Your task to perform on an android device: open app "Walmart Shopping & Grocery" (install if not already installed) Image 0: 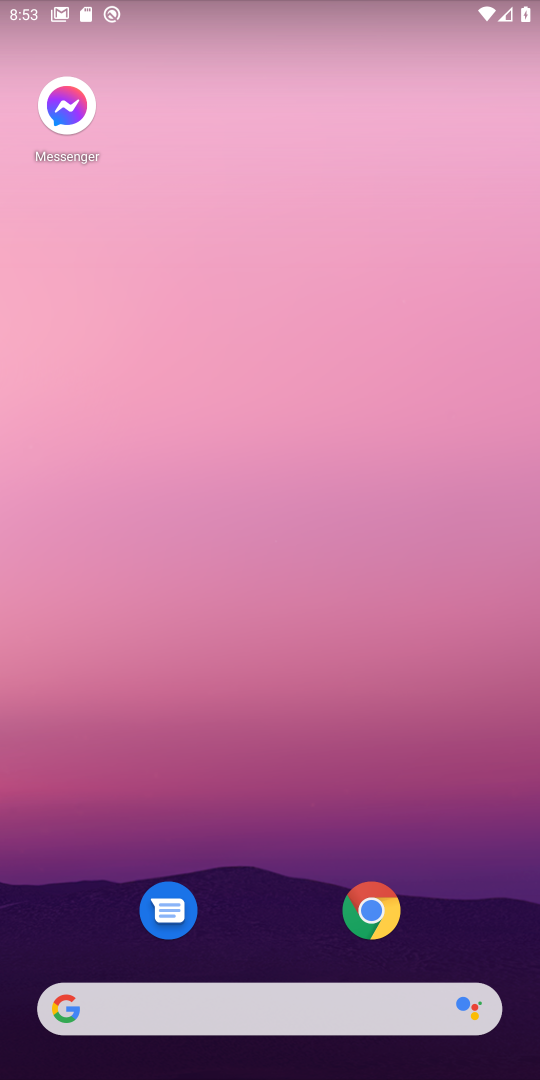
Step 0: press back button
Your task to perform on an android device: open app "Walmart Shopping & Grocery" (install if not already installed) Image 1: 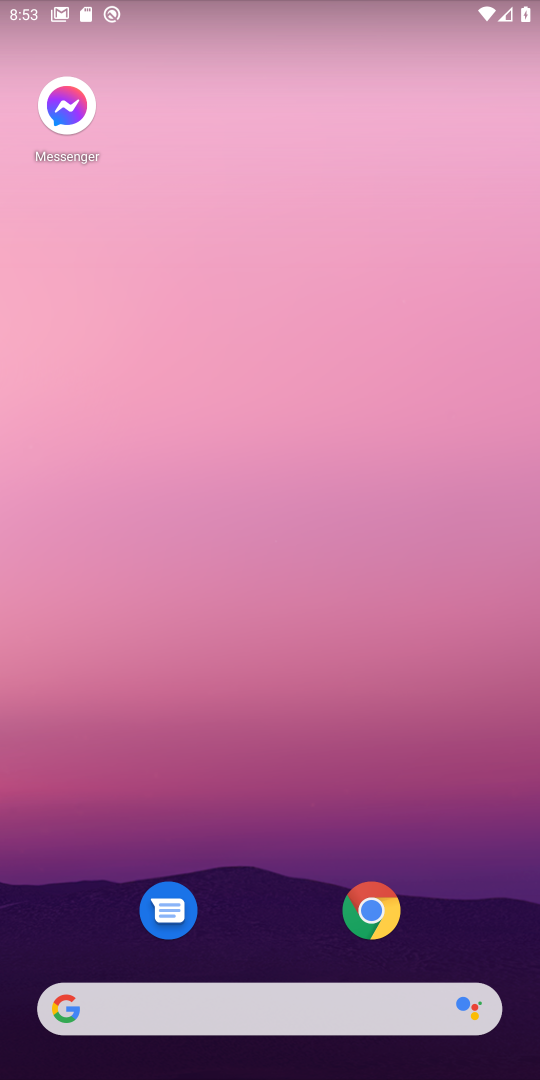
Step 1: press back button
Your task to perform on an android device: open app "Walmart Shopping & Grocery" (install if not already installed) Image 2: 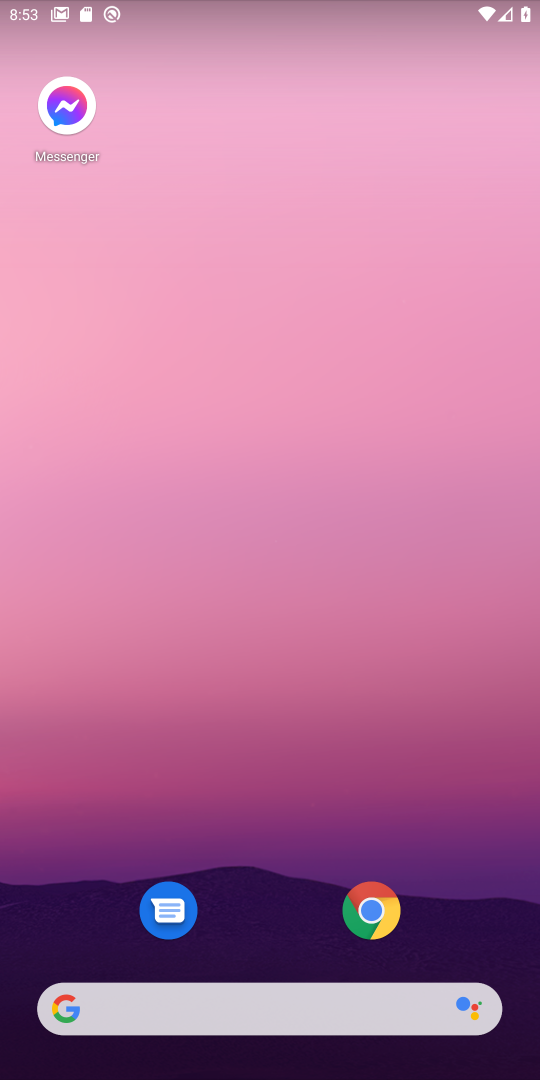
Step 2: drag from (238, 944) to (192, 2)
Your task to perform on an android device: open app "Walmart Shopping & Grocery" (install if not already installed) Image 3: 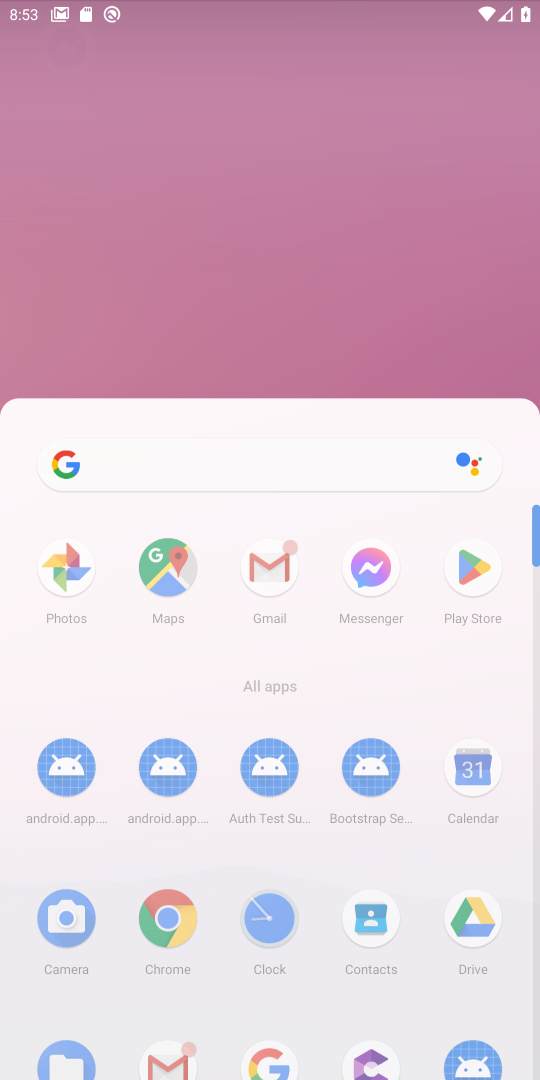
Step 3: drag from (353, 859) to (364, 304)
Your task to perform on an android device: open app "Walmart Shopping & Grocery" (install if not already installed) Image 4: 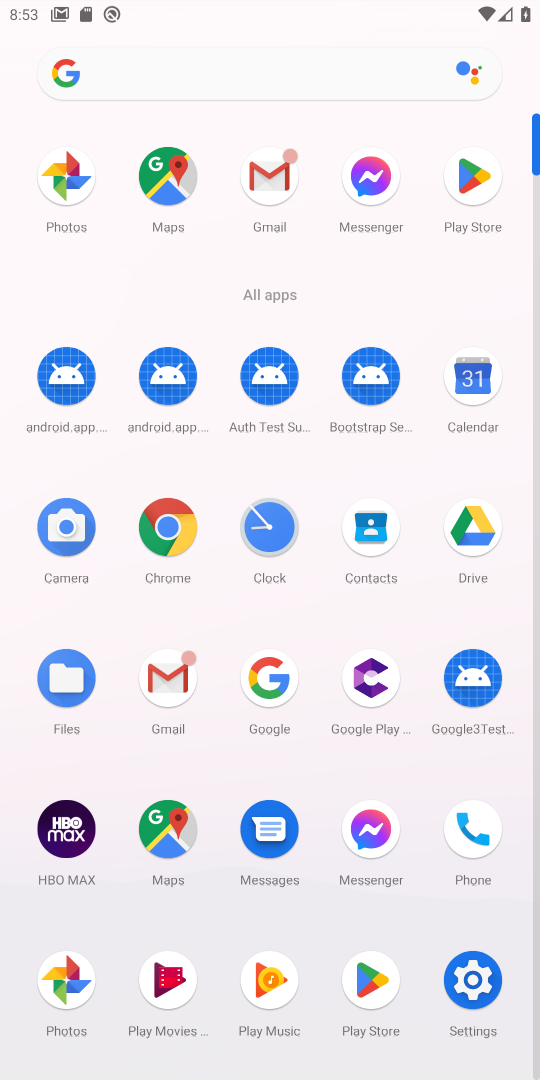
Step 4: drag from (363, 747) to (363, 242)
Your task to perform on an android device: open app "Walmart Shopping & Grocery" (install if not already installed) Image 5: 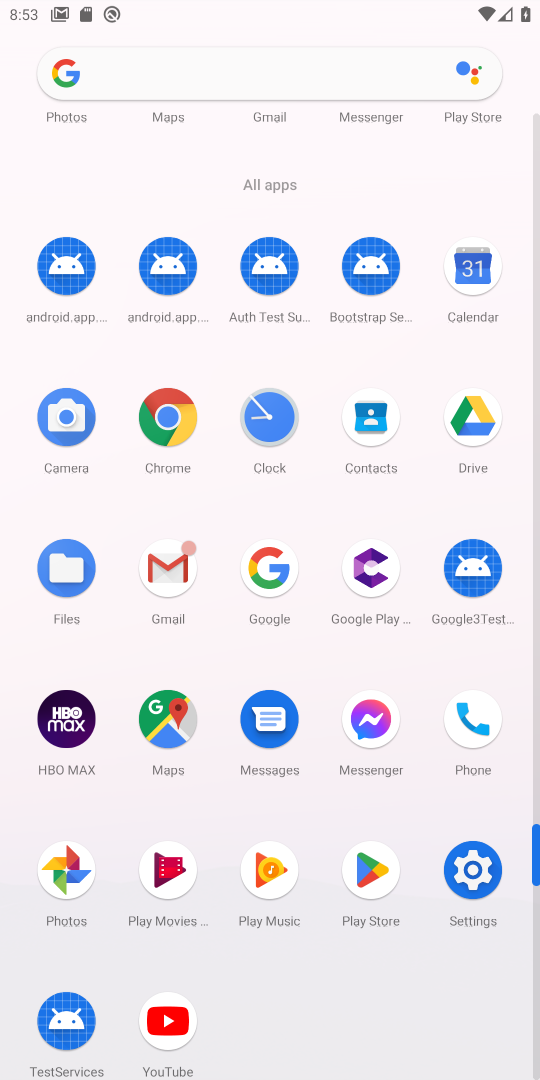
Step 5: click (372, 867)
Your task to perform on an android device: open app "Walmart Shopping & Grocery" (install if not already installed) Image 6: 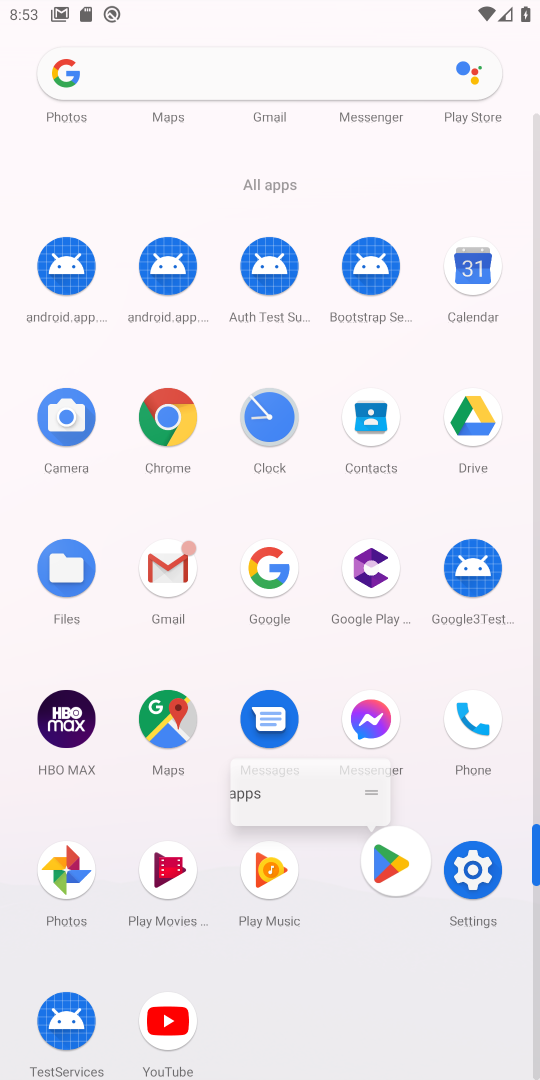
Step 6: click (367, 873)
Your task to perform on an android device: open app "Walmart Shopping & Grocery" (install if not already installed) Image 7: 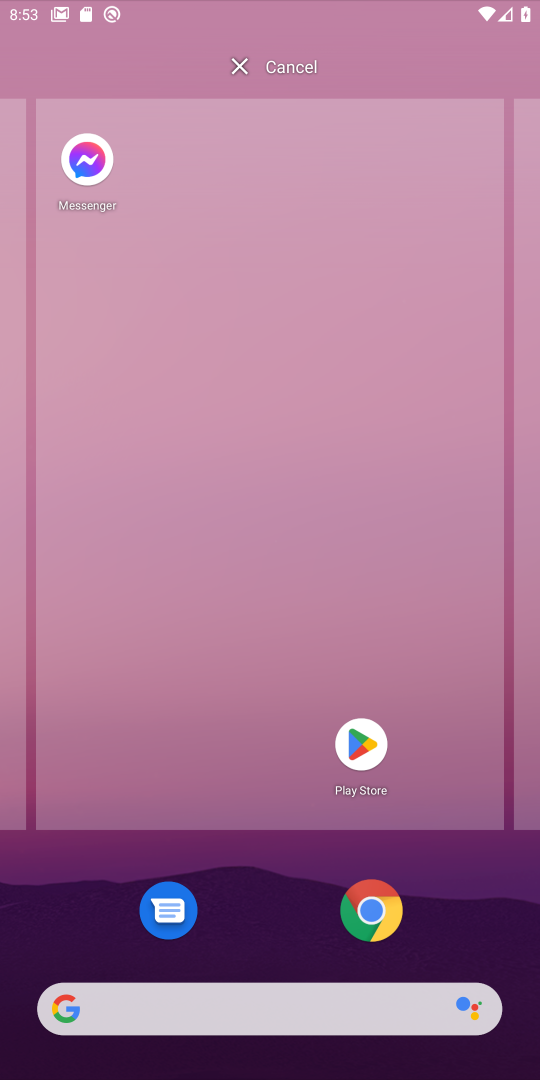
Step 7: click (372, 871)
Your task to perform on an android device: open app "Walmart Shopping & Grocery" (install if not already installed) Image 8: 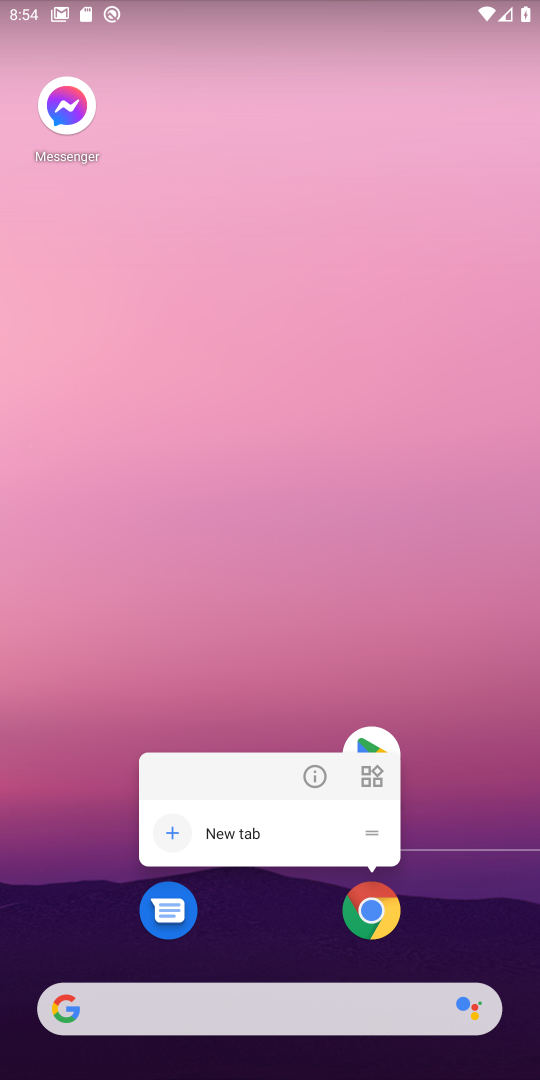
Step 8: drag from (401, 736) to (258, 113)
Your task to perform on an android device: open app "Walmart Shopping & Grocery" (install if not already installed) Image 9: 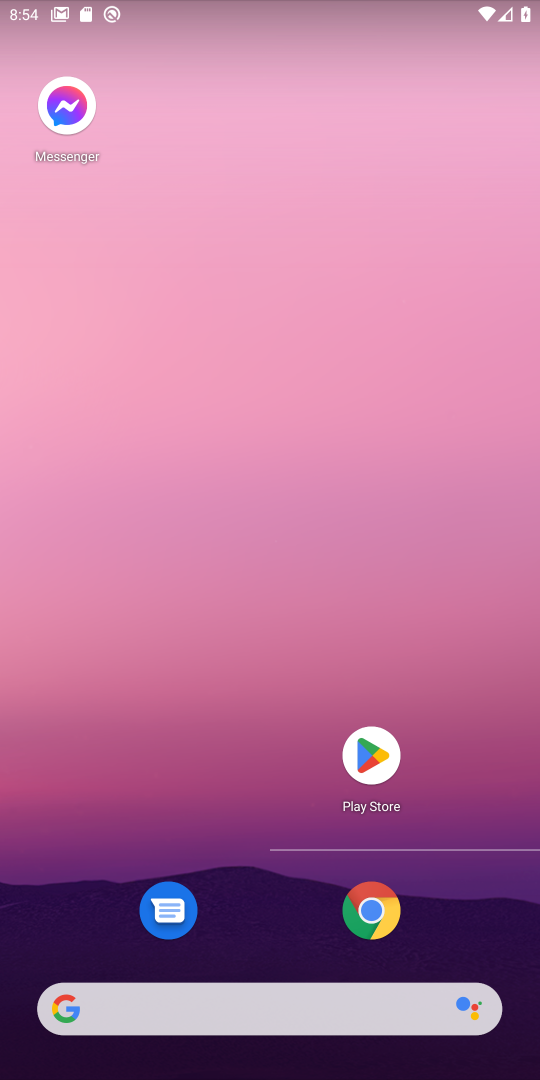
Step 9: drag from (400, 717) to (327, 168)
Your task to perform on an android device: open app "Walmart Shopping & Grocery" (install if not already installed) Image 10: 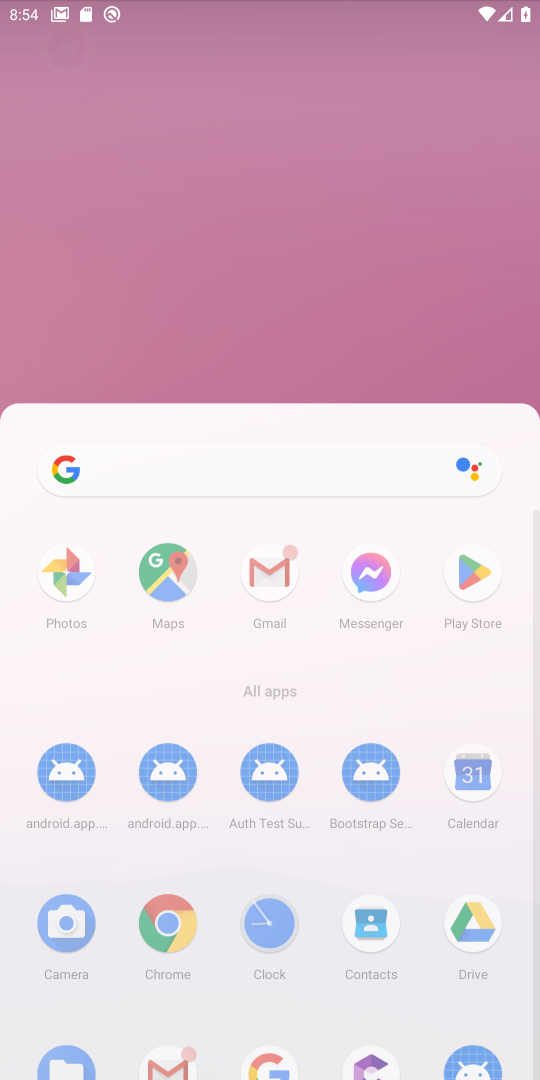
Step 10: drag from (468, 594) to (433, 278)
Your task to perform on an android device: open app "Walmart Shopping & Grocery" (install if not already installed) Image 11: 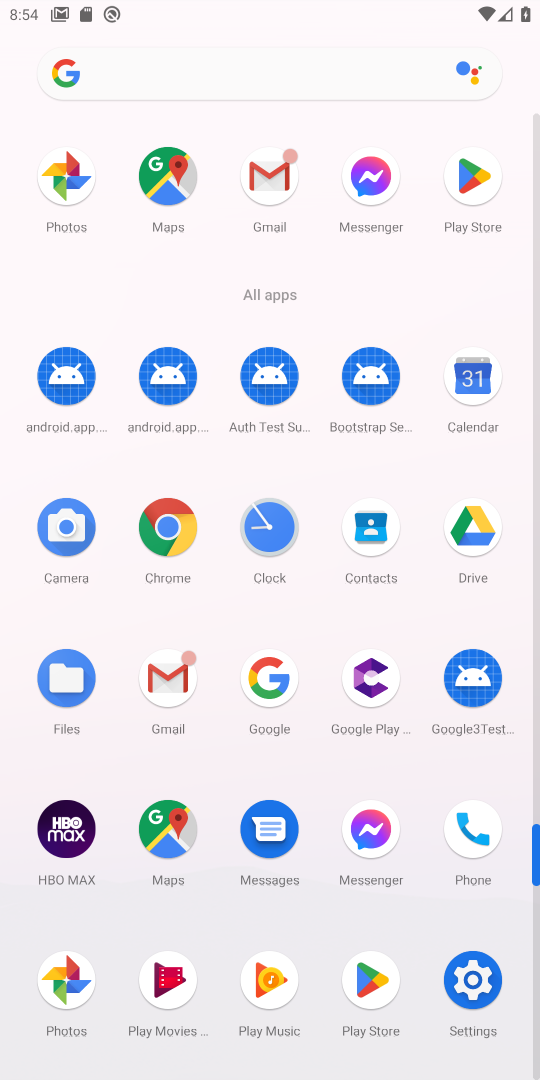
Step 11: click (384, 967)
Your task to perform on an android device: open app "Walmart Shopping & Grocery" (install if not already installed) Image 12: 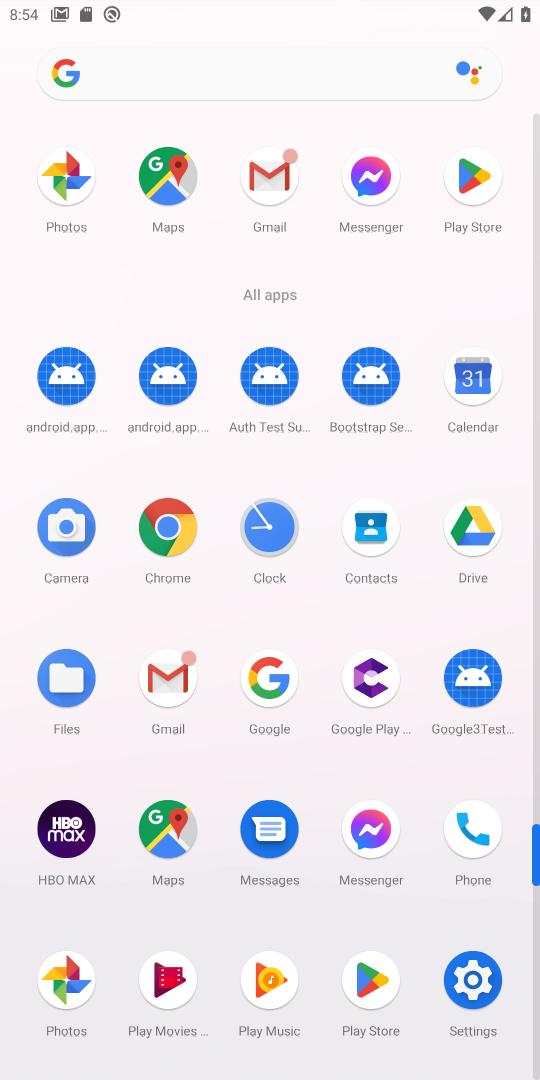
Step 12: click (381, 961)
Your task to perform on an android device: open app "Walmart Shopping & Grocery" (install if not already installed) Image 13: 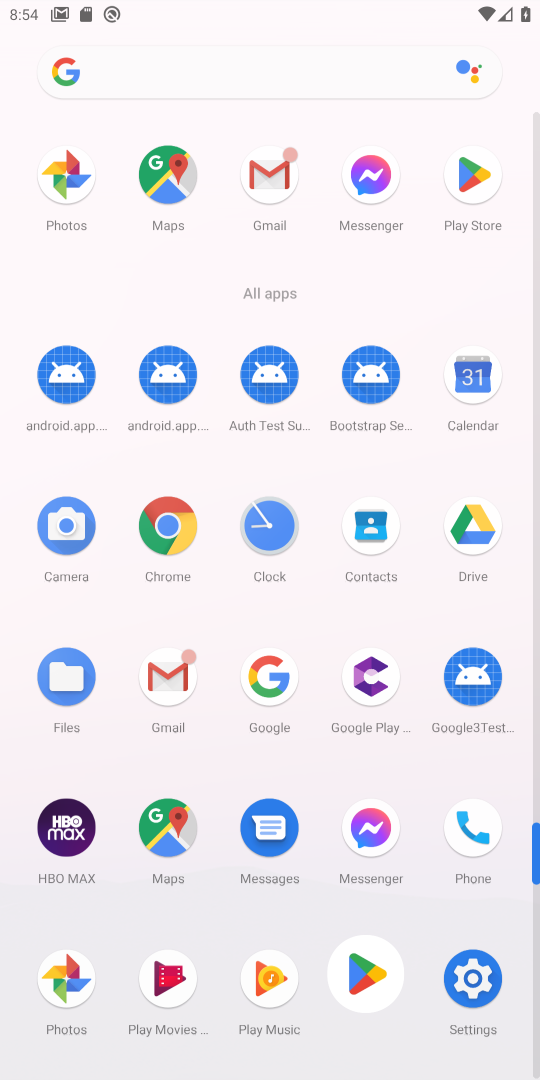
Step 13: click (383, 961)
Your task to perform on an android device: open app "Walmart Shopping & Grocery" (install if not already installed) Image 14: 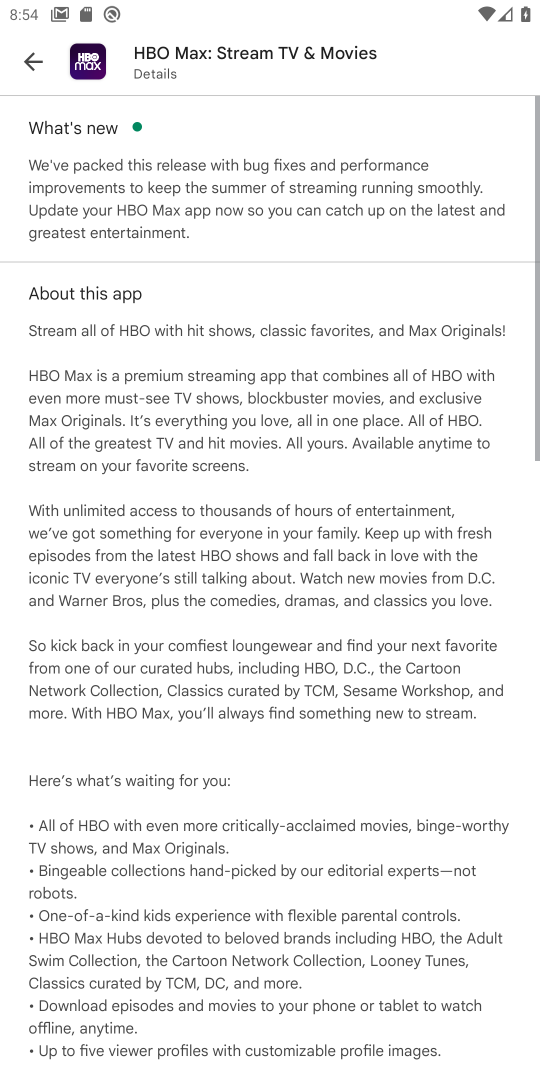
Step 14: click (23, 55)
Your task to perform on an android device: open app "Walmart Shopping & Grocery" (install if not already installed) Image 15: 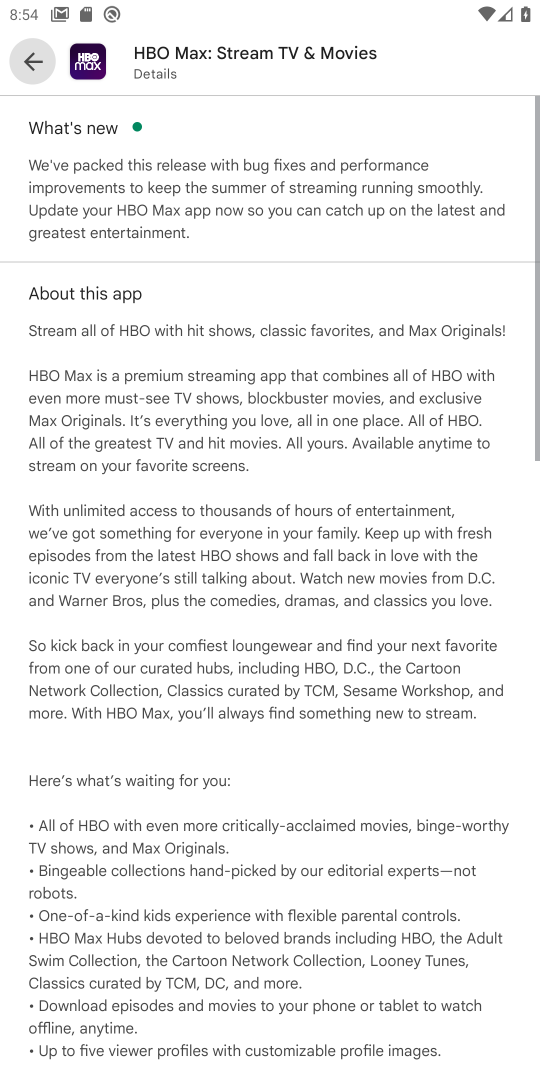
Step 15: click (26, 52)
Your task to perform on an android device: open app "Walmart Shopping & Grocery" (install if not already installed) Image 16: 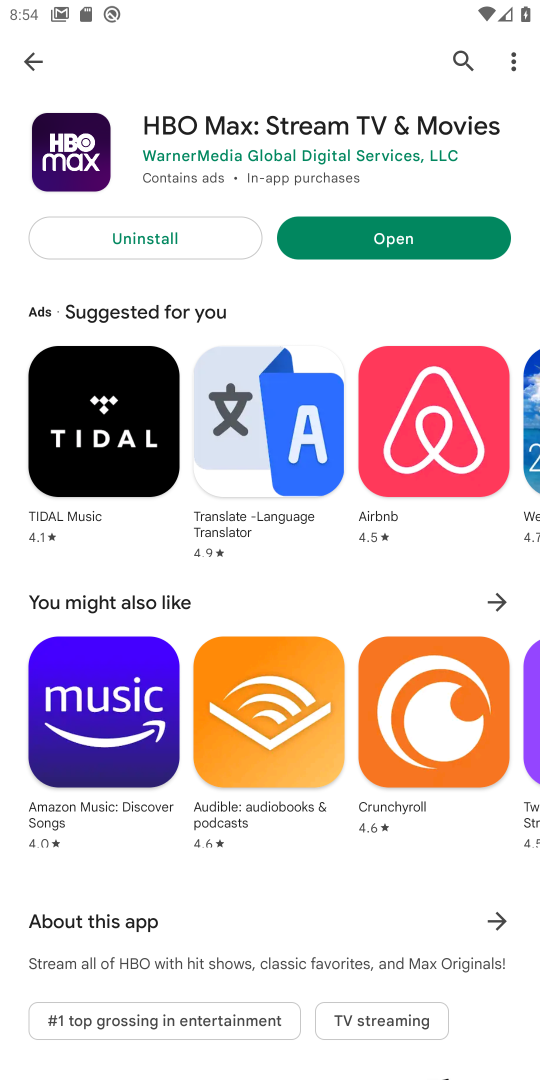
Step 16: click (27, 29)
Your task to perform on an android device: open app "Walmart Shopping & Grocery" (install if not already installed) Image 17: 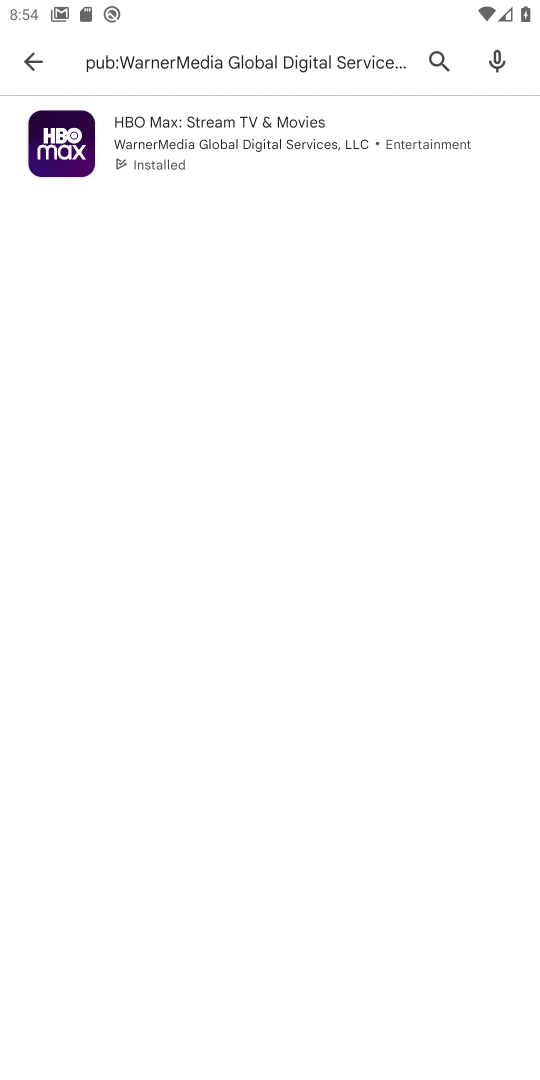
Step 17: click (31, 61)
Your task to perform on an android device: open app "Walmart Shopping & Grocery" (install if not already installed) Image 18: 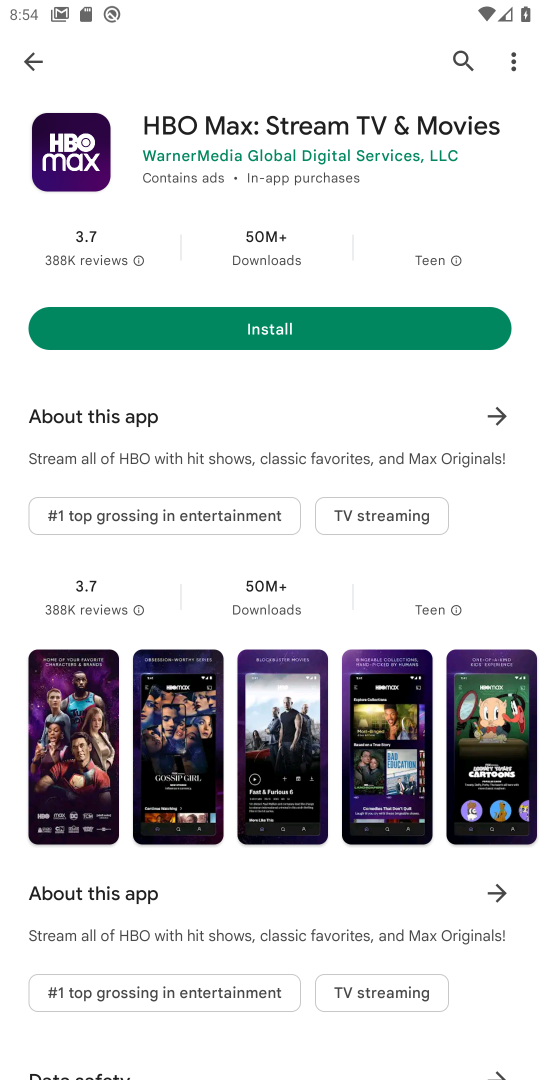
Step 18: click (18, 44)
Your task to perform on an android device: open app "Walmart Shopping & Grocery" (install if not already installed) Image 19: 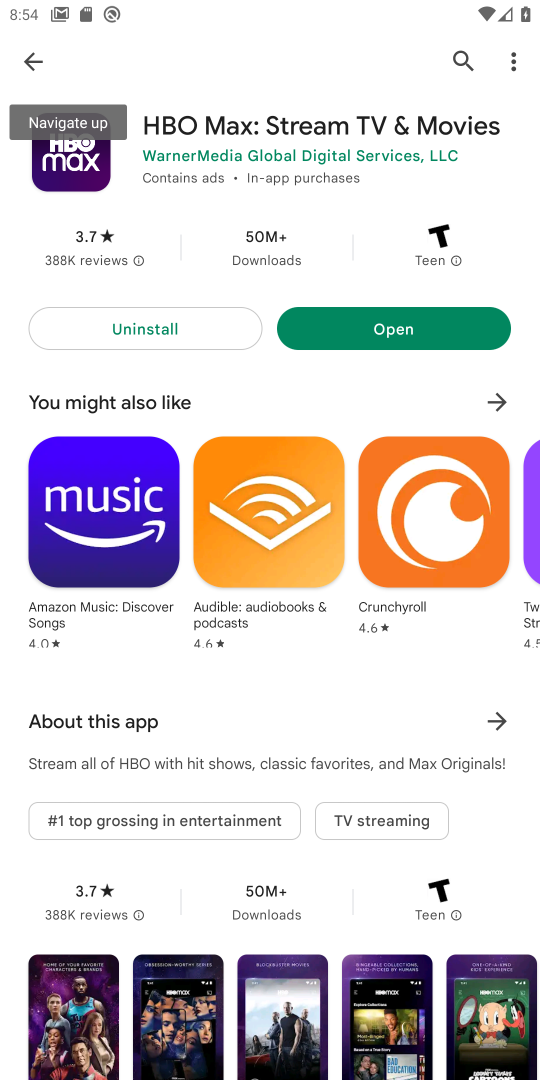
Step 19: click (30, 51)
Your task to perform on an android device: open app "Walmart Shopping & Grocery" (install if not already installed) Image 20: 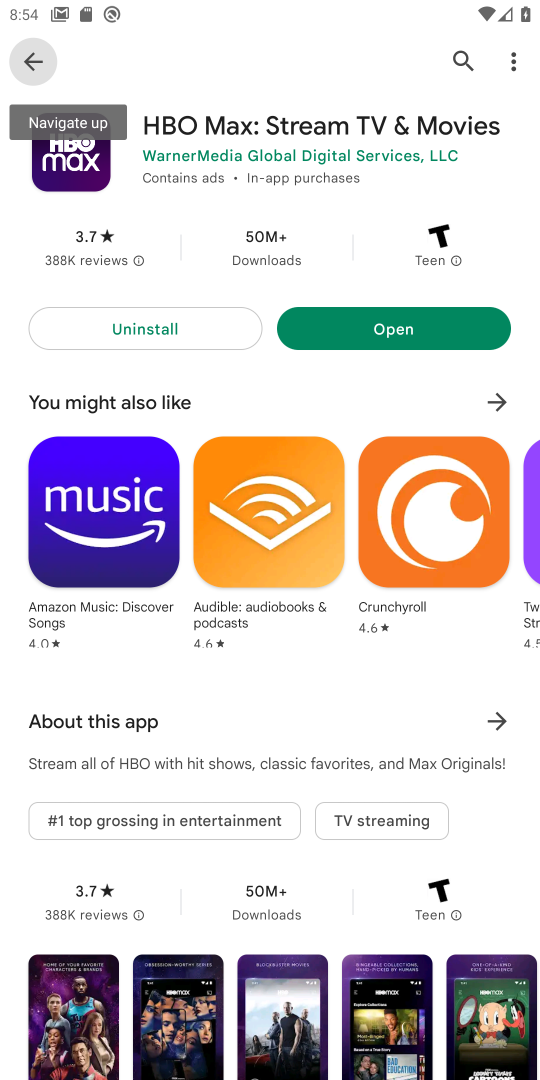
Step 20: click (39, 29)
Your task to perform on an android device: open app "Walmart Shopping & Grocery" (install if not already installed) Image 21: 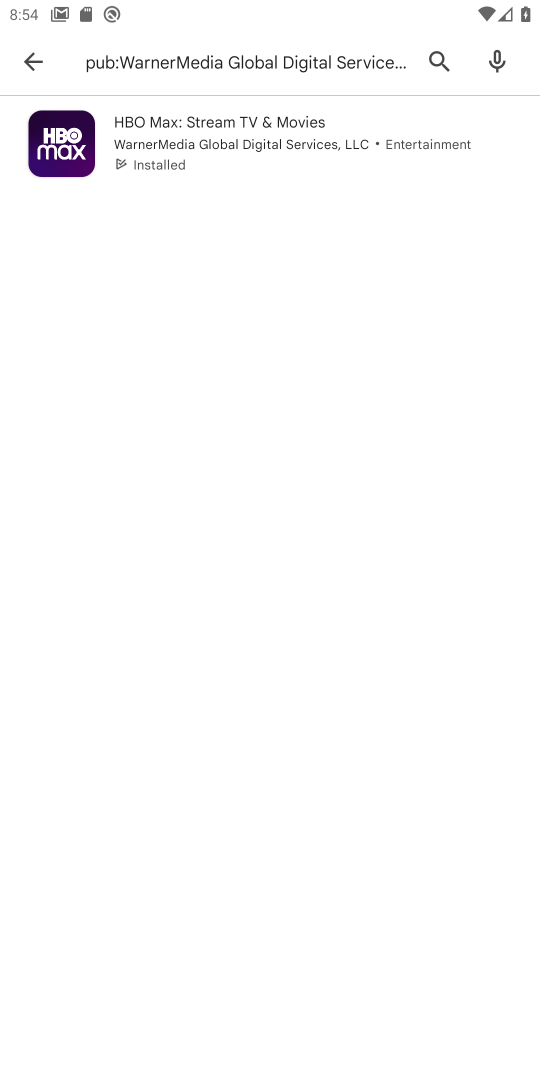
Step 21: click (45, 68)
Your task to perform on an android device: open app "Walmart Shopping & Grocery" (install if not already installed) Image 22: 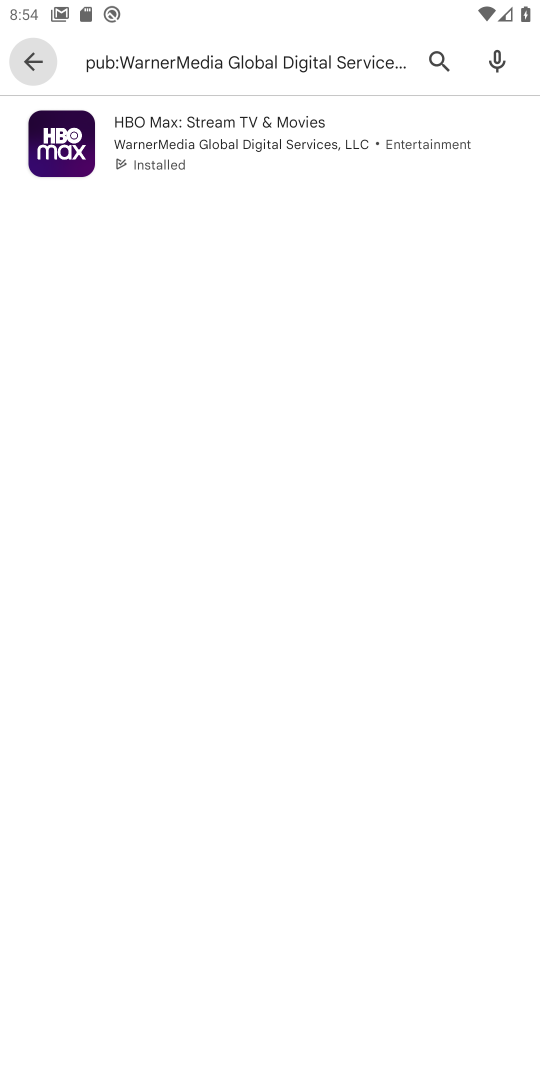
Step 22: click (33, 47)
Your task to perform on an android device: open app "Walmart Shopping & Grocery" (install if not already installed) Image 23: 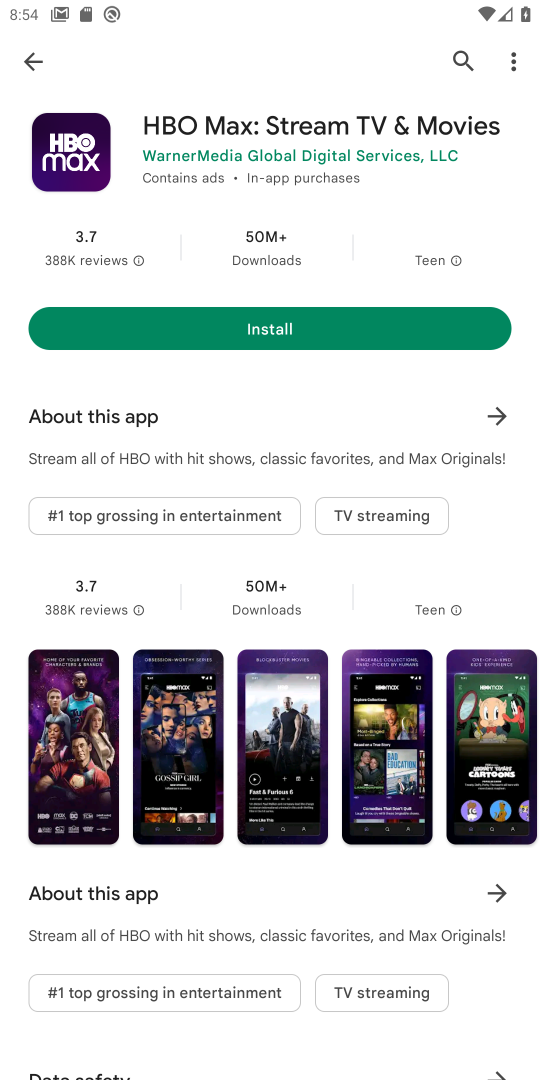
Step 23: click (29, 47)
Your task to perform on an android device: open app "Walmart Shopping & Grocery" (install if not already installed) Image 24: 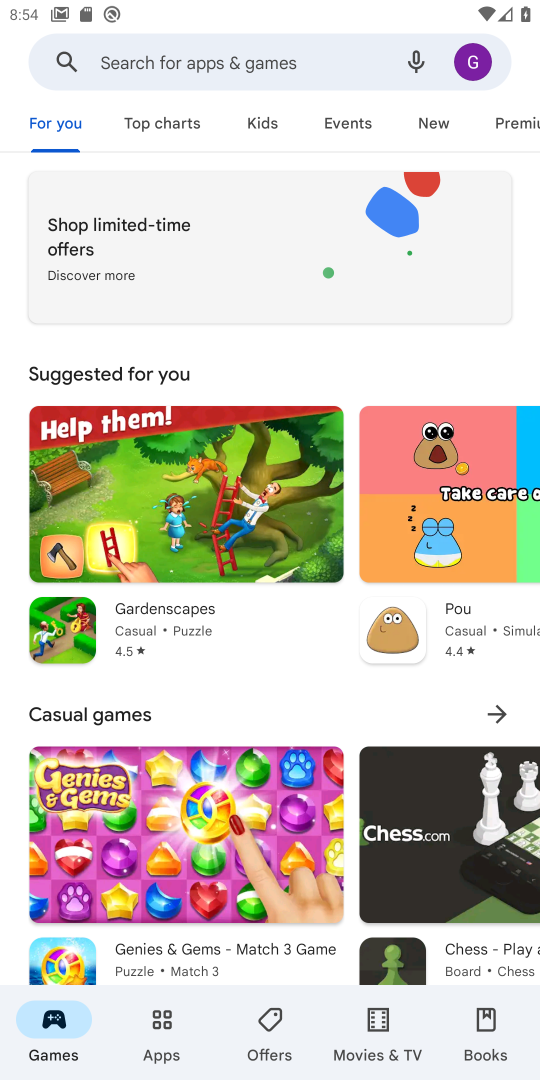
Step 24: click (97, 48)
Your task to perform on an android device: open app "Walmart Shopping & Grocery" (install if not already installed) Image 25: 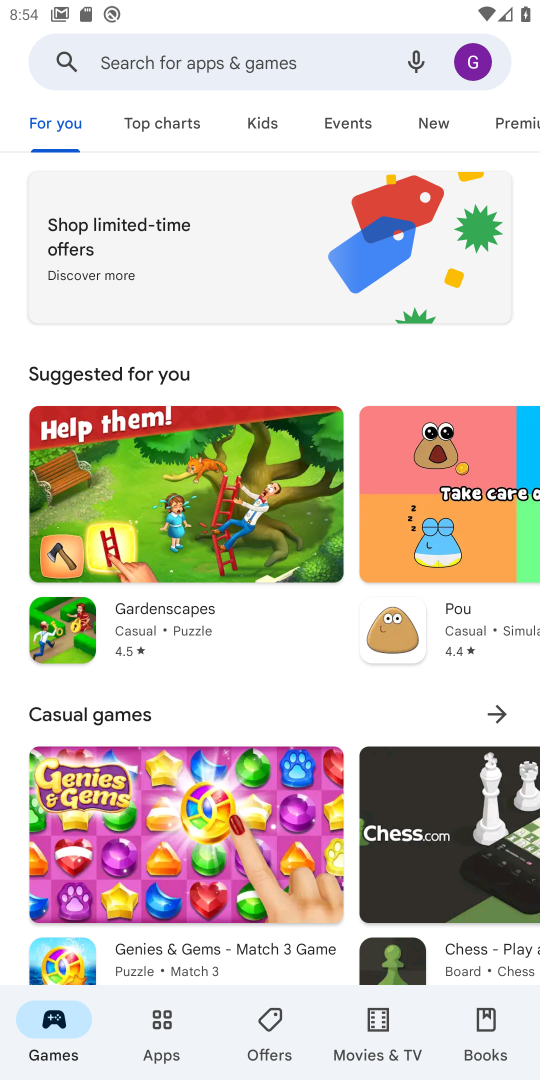
Step 25: click (148, 80)
Your task to perform on an android device: open app "Walmart Shopping & Grocery" (install if not already installed) Image 26: 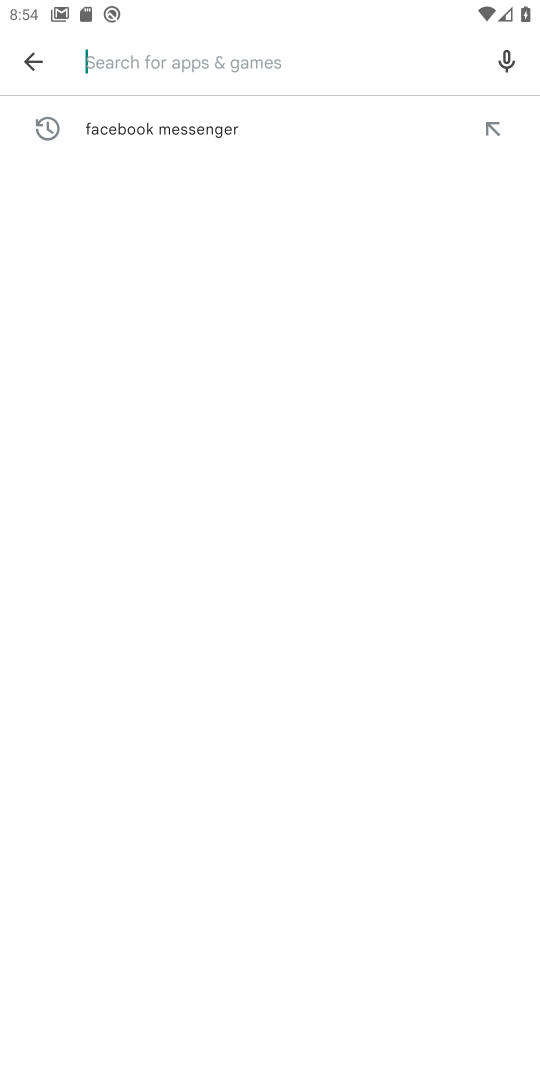
Step 26: click (137, 57)
Your task to perform on an android device: open app "Walmart Shopping & Grocery" (install if not already installed) Image 27: 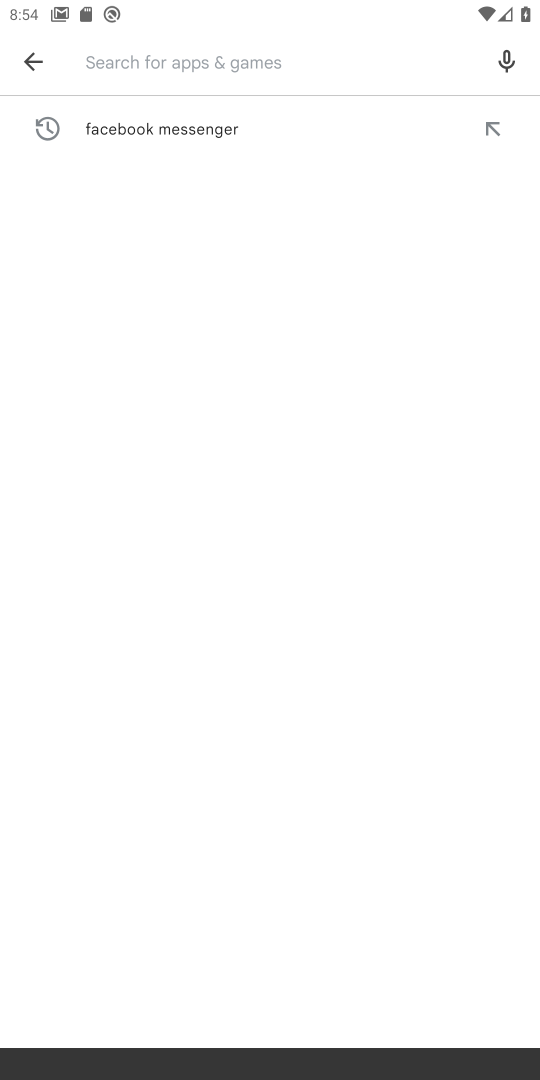
Step 27: click (137, 57)
Your task to perform on an android device: open app "Walmart Shopping & Grocery" (install if not already installed) Image 28: 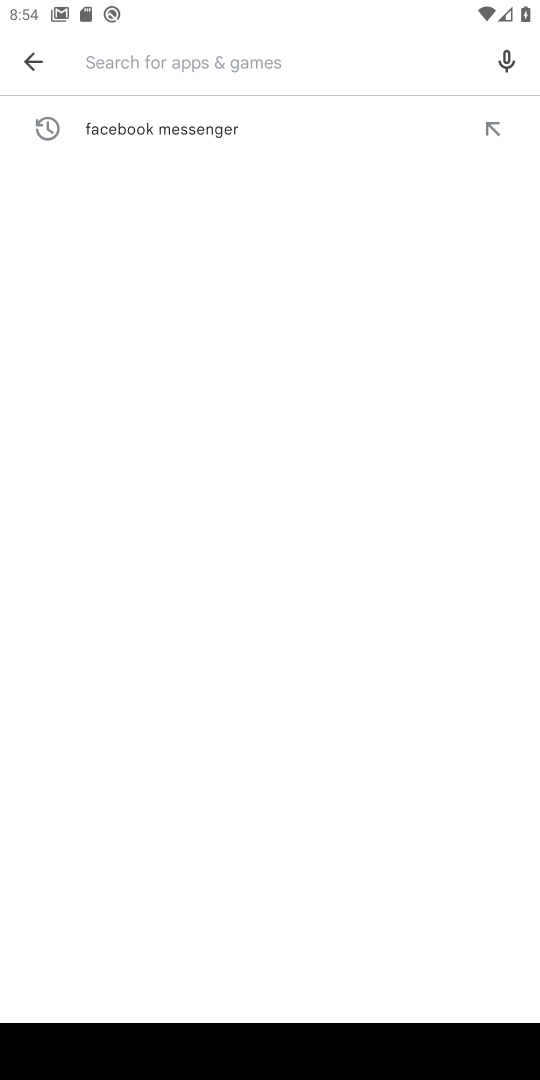
Step 28: type "Walmart Shopping & Grocery"
Your task to perform on an android device: open app "Walmart Shopping & Grocery" (install if not already installed) Image 29: 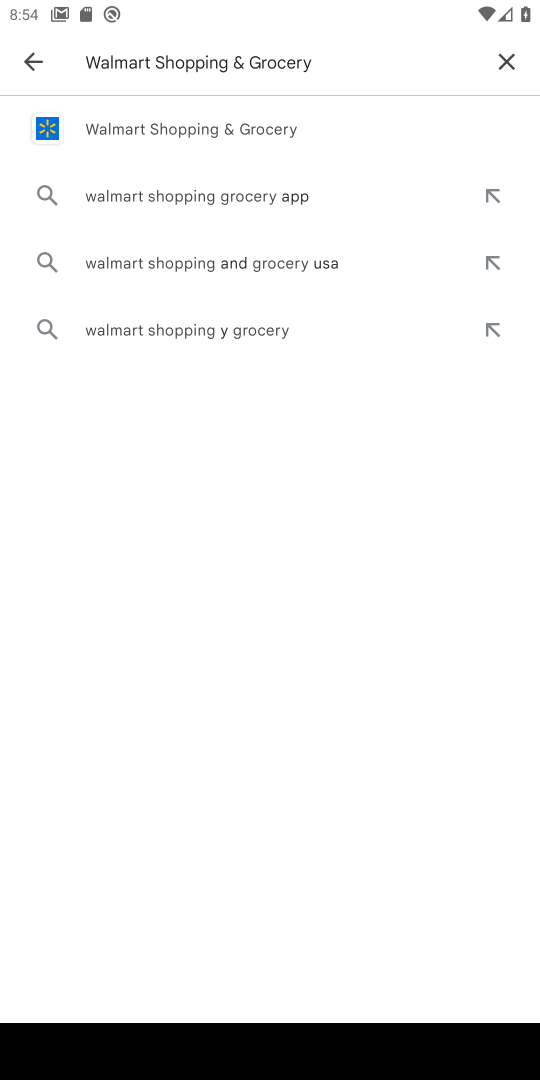
Step 29: click (234, 124)
Your task to perform on an android device: open app "Walmart Shopping & Grocery" (install if not already installed) Image 30: 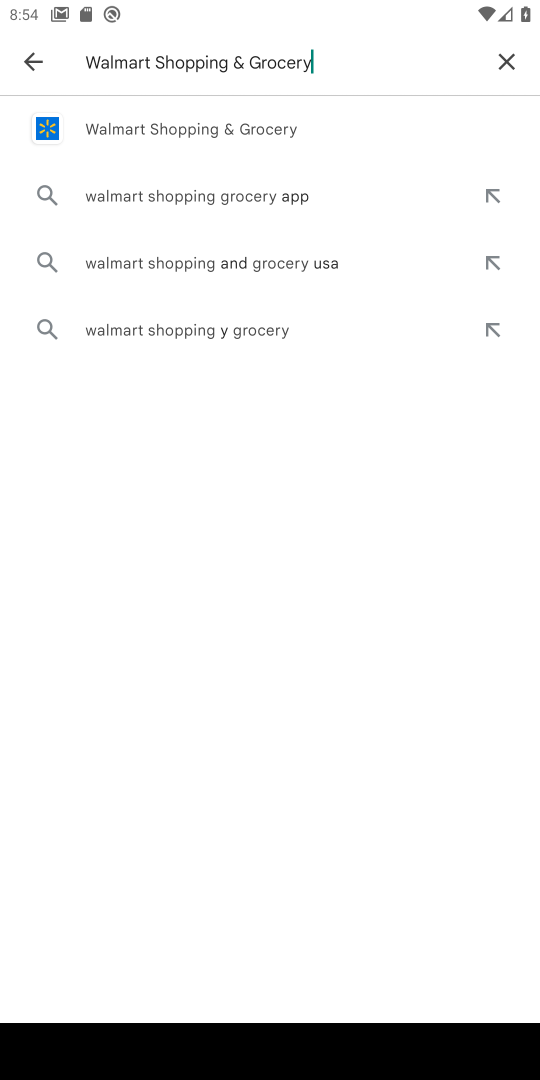
Step 30: click (234, 124)
Your task to perform on an android device: open app "Walmart Shopping & Grocery" (install if not already installed) Image 31: 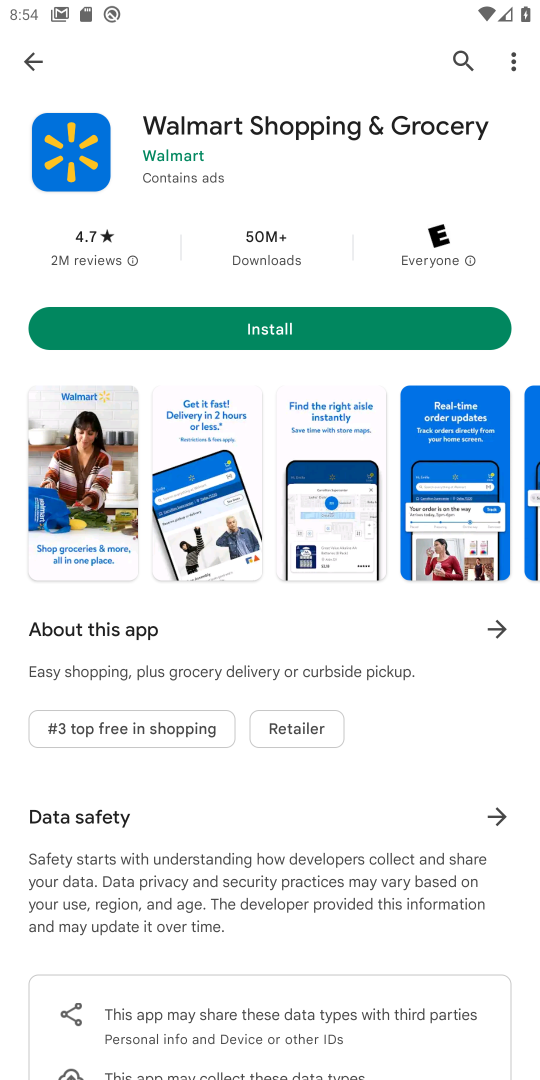
Step 31: click (266, 313)
Your task to perform on an android device: open app "Walmart Shopping & Grocery" (install if not already installed) Image 32: 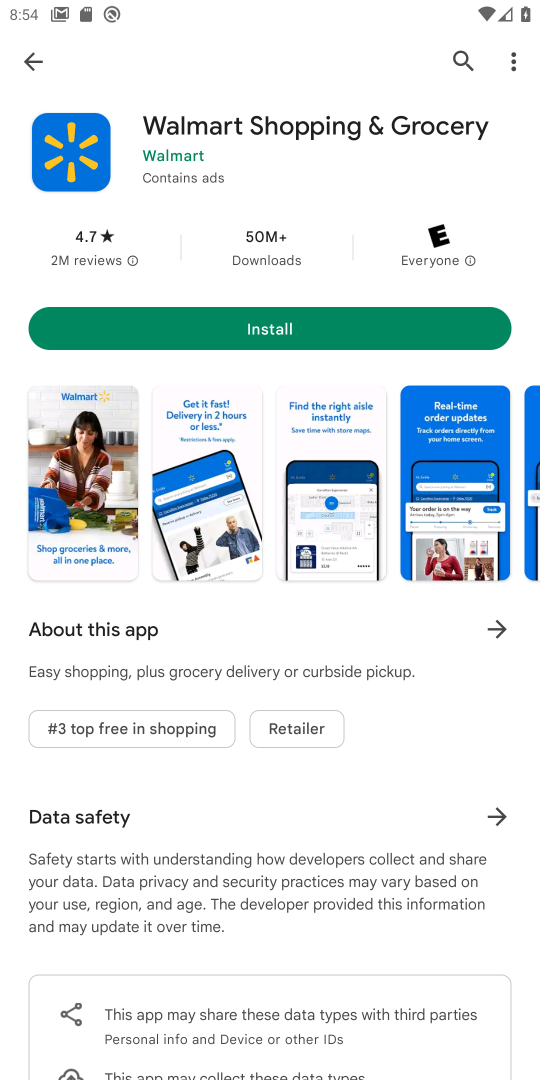
Step 32: click (289, 309)
Your task to perform on an android device: open app "Walmart Shopping & Grocery" (install if not already installed) Image 33: 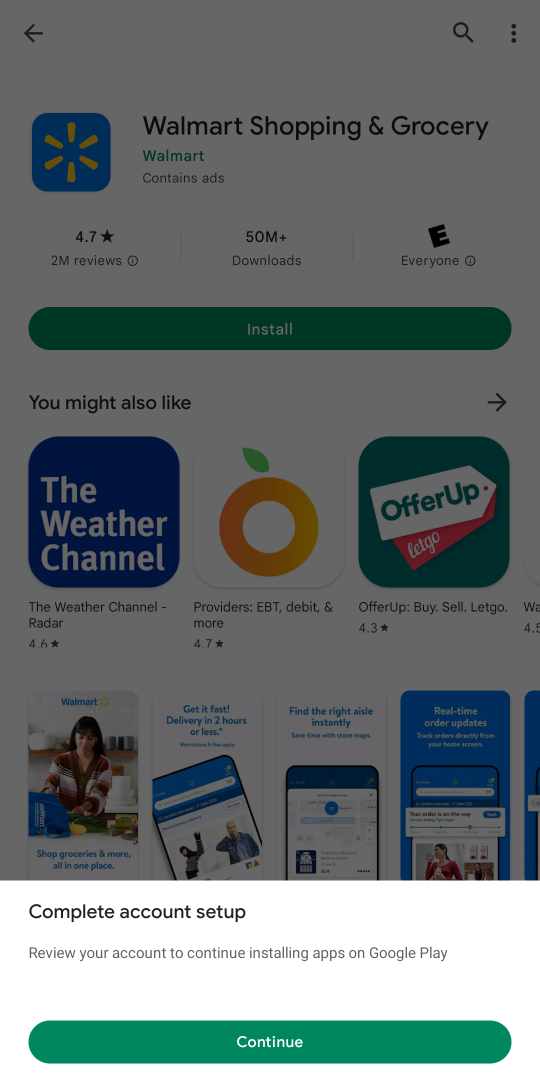
Step 33: click (285, 1046)
Your task to perform on an android device: open app "Walmart Shopping & Grocery" (install if not already installed) Image 34: 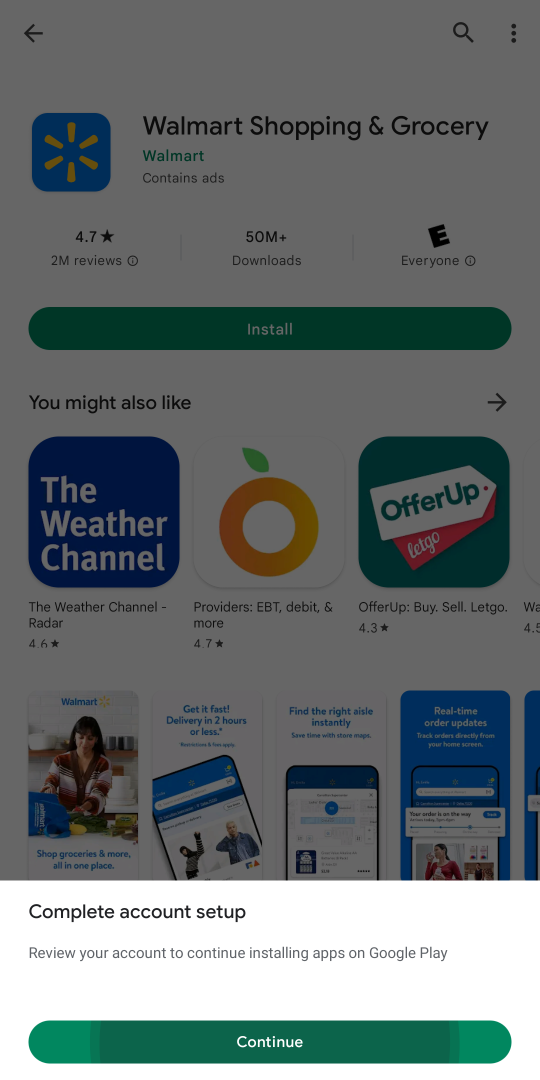
Step 34: click (295, 1044)
Your task to perform on an android device: open app "Walmart Shopping & Grocery" (install if not already installed) Image 35: 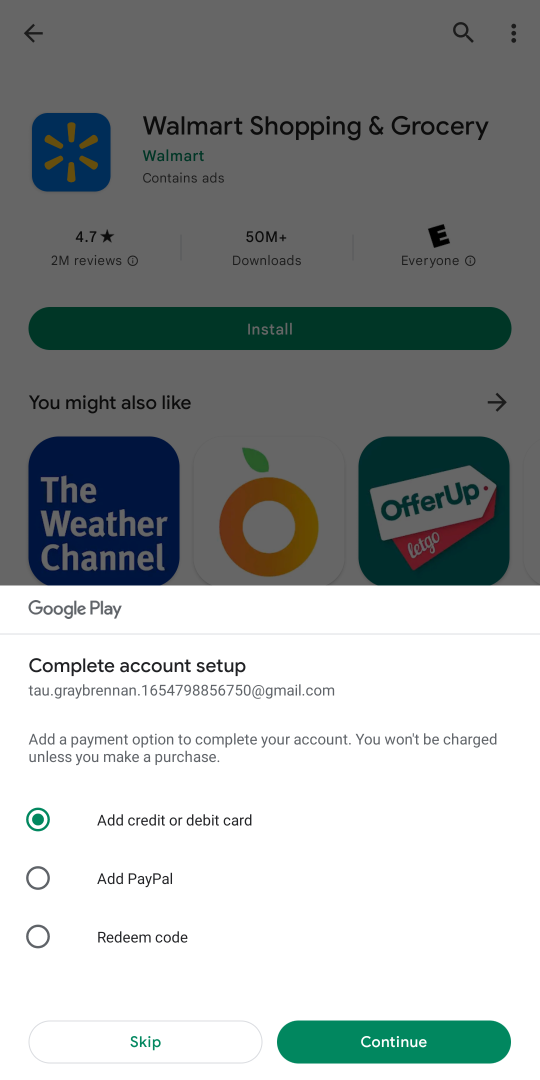
Step 35: click (145, 1025)
Your task to perform on an android device: open app "Walmart Shopping & Grocery" (install if not already installed) Image 36: 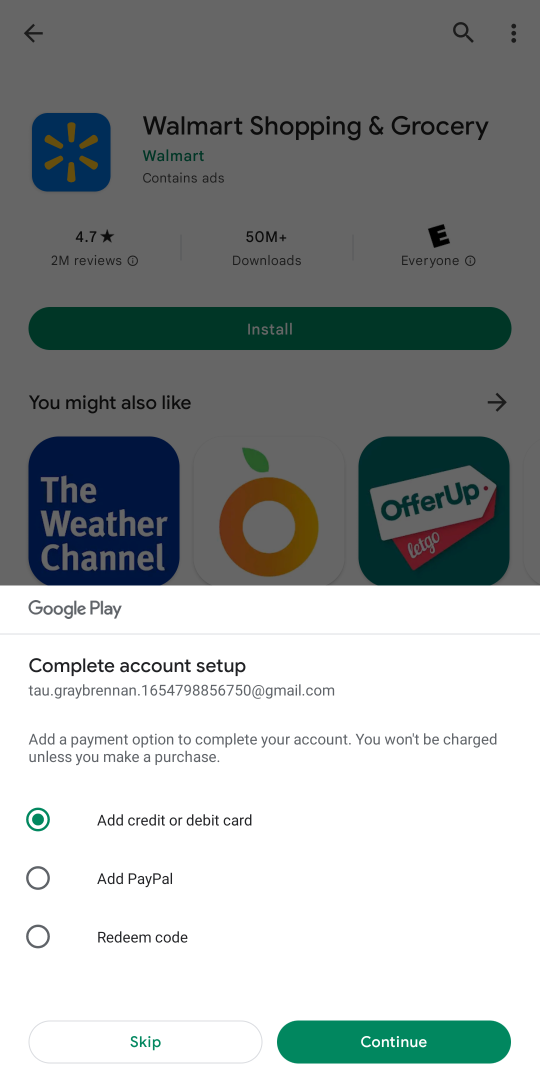
Step 36: click (146, 1028)
Your task to perform on an android device: open app "Walmart Shopping & Grocery" (install if not already installed) Image 37: 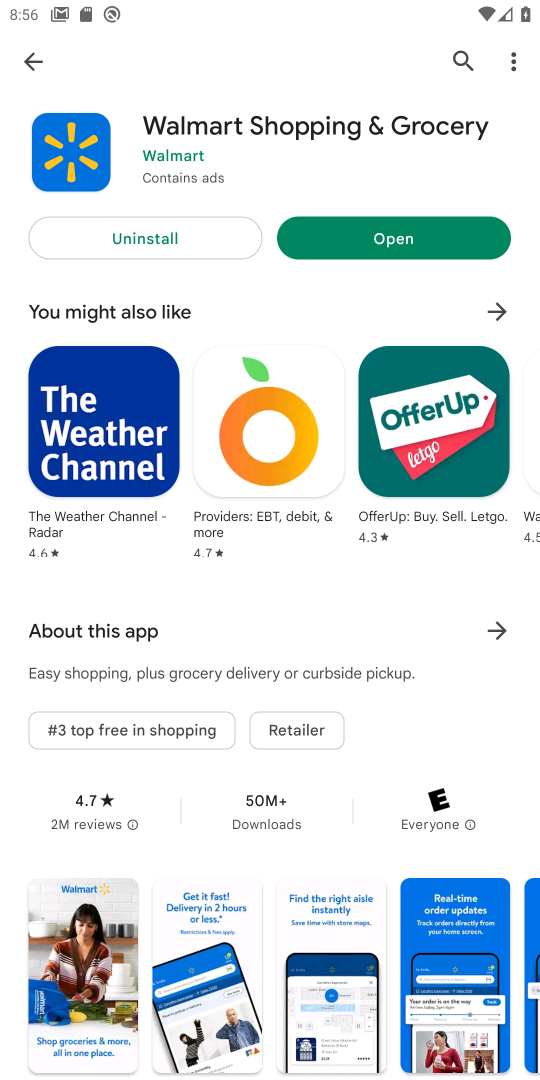
Step 37: click (401, 243)
Your task to perform on an android device: open app "Walmart Shopping & Grocery" (install if not already installed) Image 38: 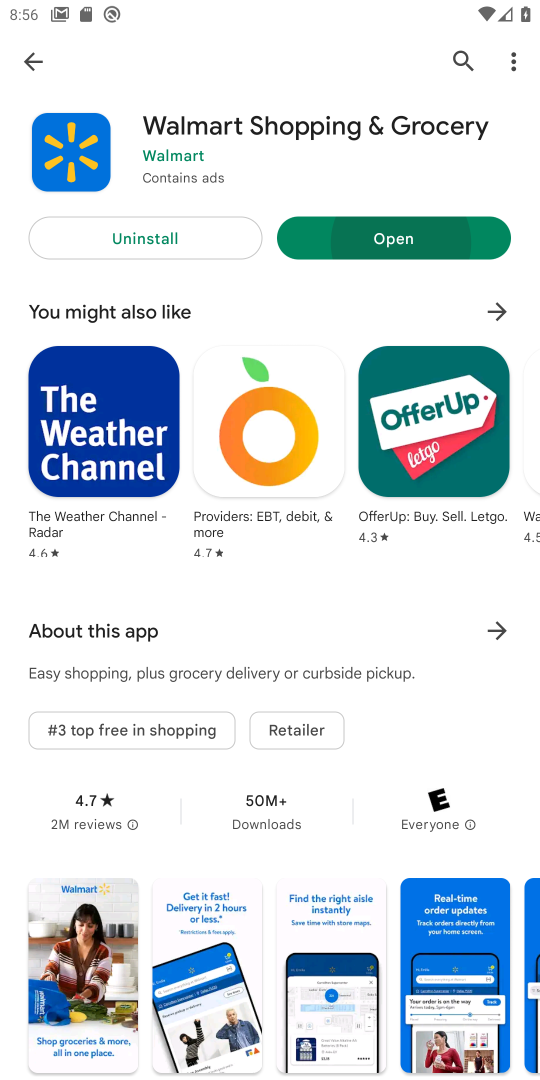
Step 38: click (399, 241)
Your task to perform on an android device: open app "Walmart Shopping & Grocery" (install if not already installed) Image 39: 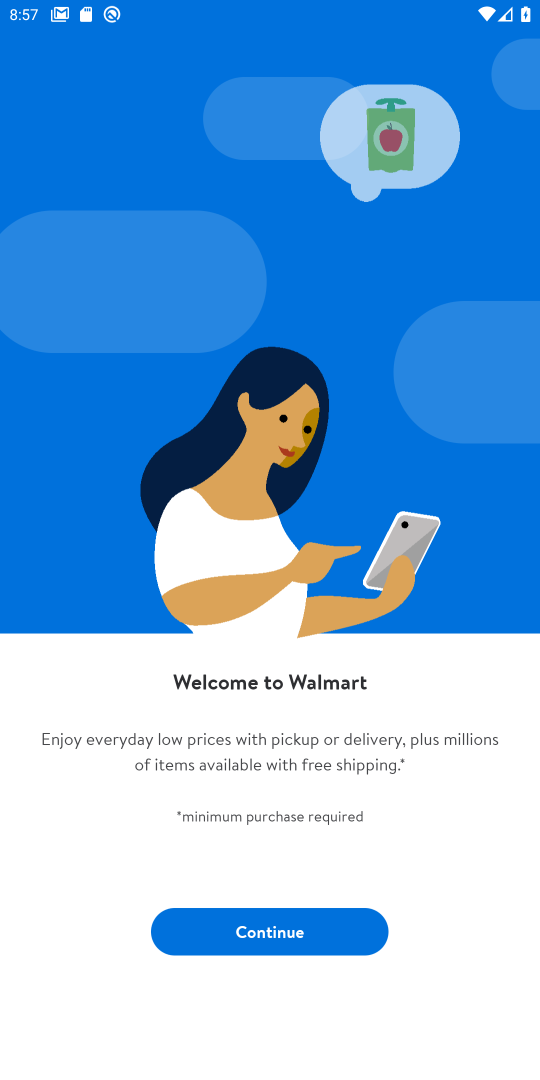
Step 39: click (305, 931)
Your task to perform on an android device: open app "Walmart Shopping & Grocery" (install if not already installed) Image 40: 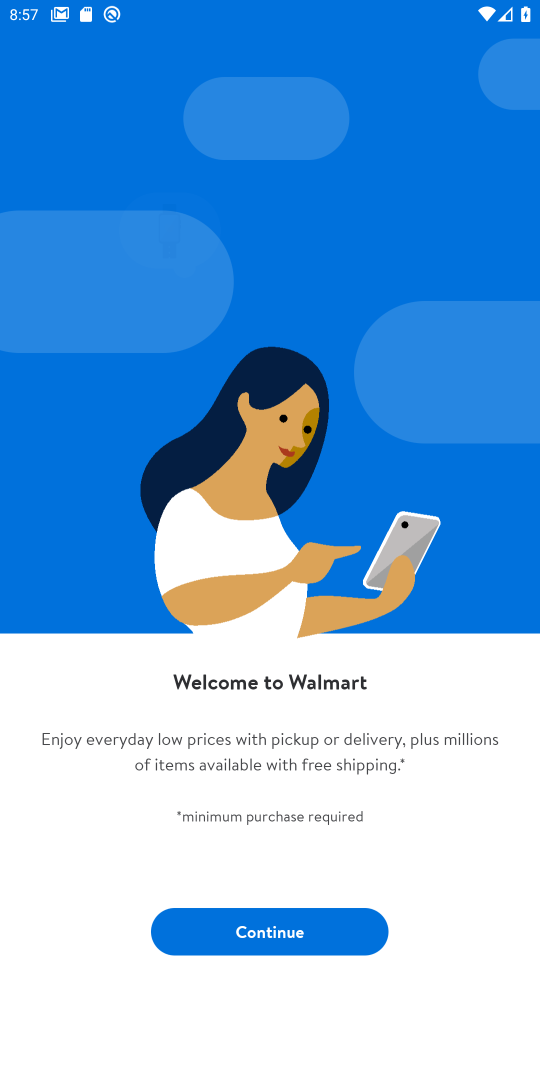
Step 40: click (305, 931)
Your task to perform on an android device: open app "Walmart Shopping & Grocery" (install if not already installed) Image 41: 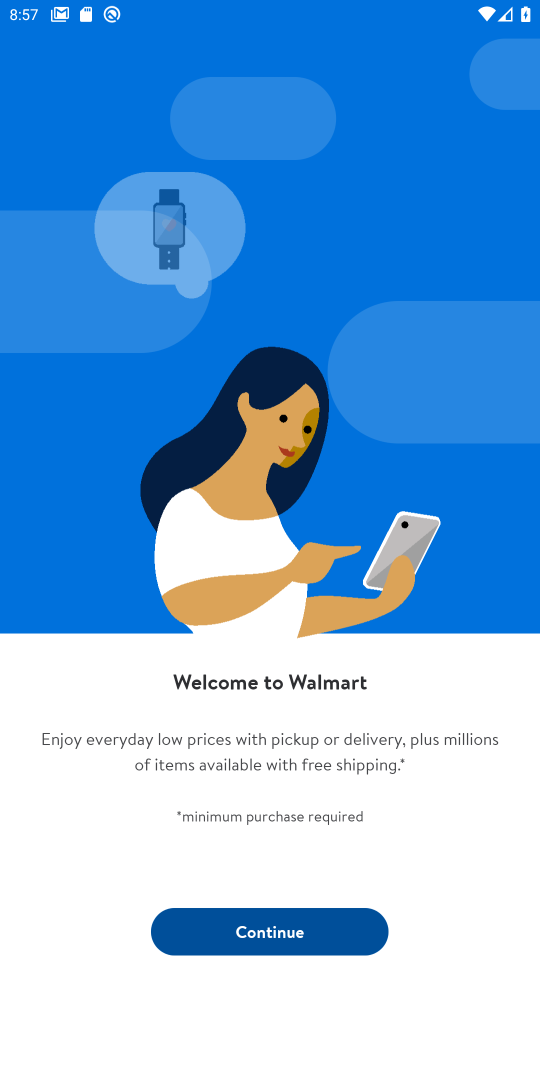
Step 41: click (300, 931)
Your task to perform on an android device: open app "Walmart Shopping & Grocery" (install if not already installed) Image 42: 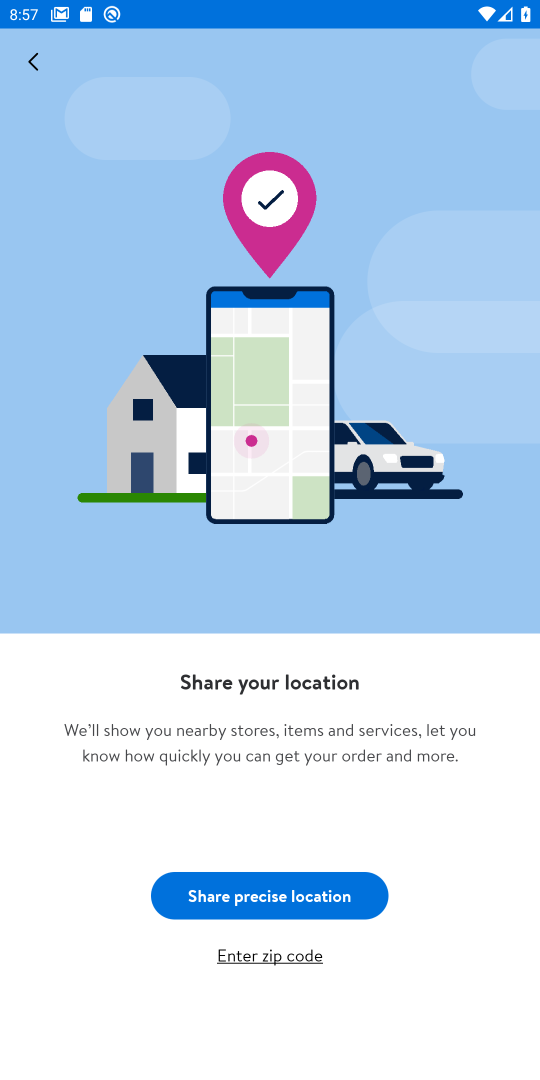
Step 42: click (317, 889)
Your task to perform on an android device: open app "Walmart Shopping & Grocery" (install if not already installed) Image 43: 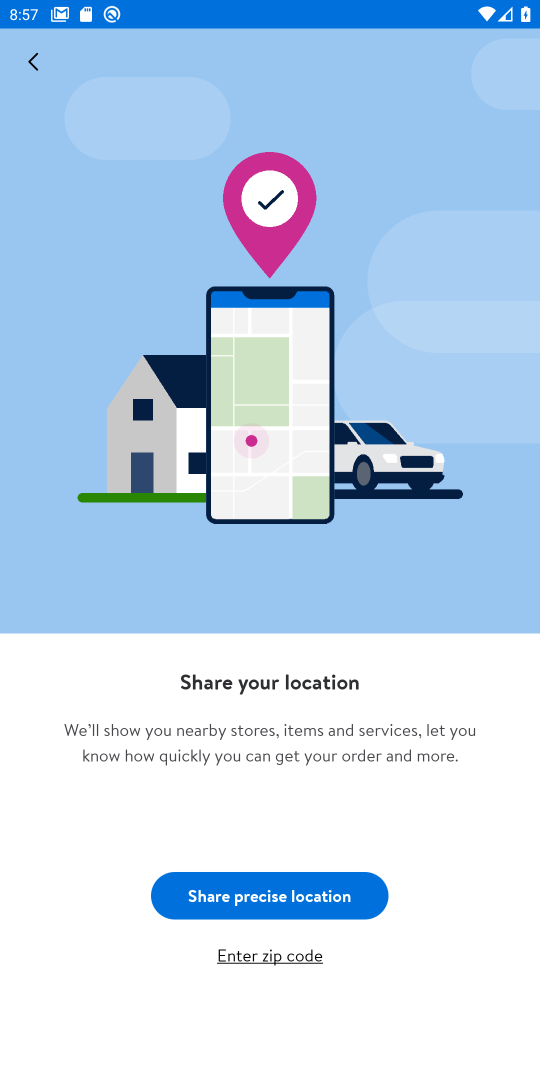
Step 43: click (318, 888)
Your task to perform on an android device: open app "Walmart Shopping & Grocery" (install if not already installed) Image 44: 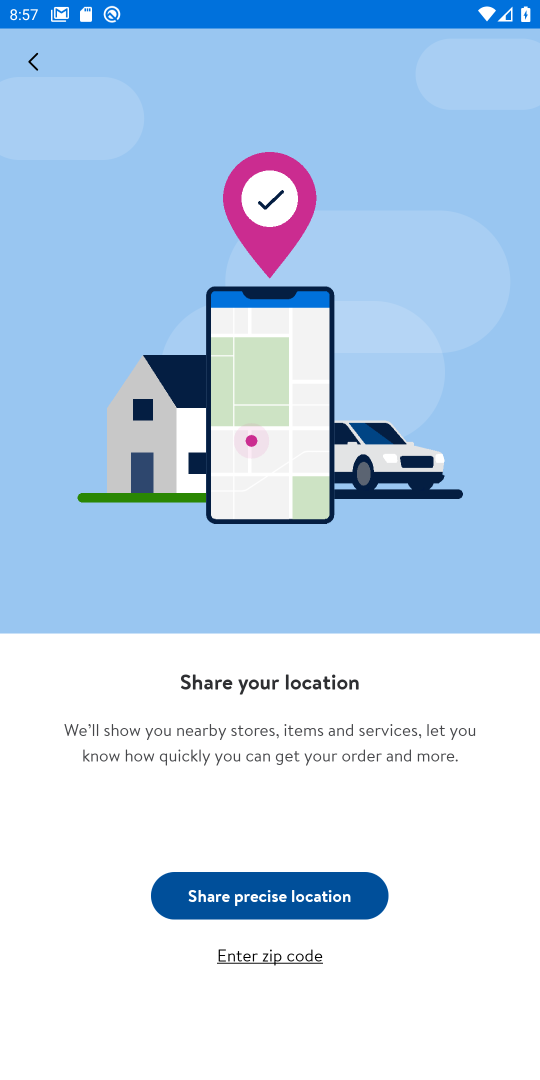
Step 44: click (318, 888)
Your task to perform on an android device: open app "Walmart Shopping & Grocery" (install if not already installed) Image 45: 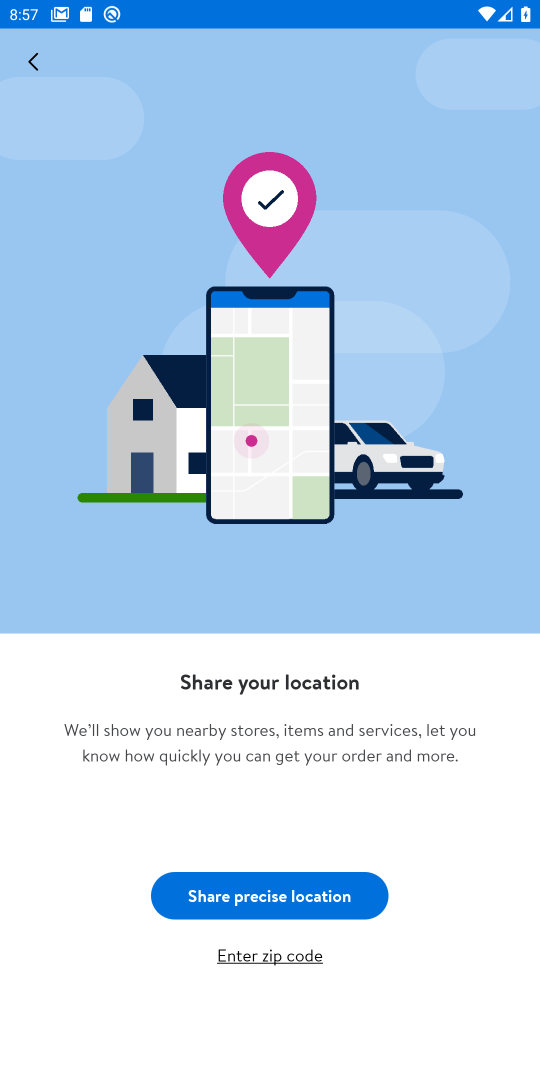
Step 45: click (318, 888)
Your task to perform on an android device: open app "Walmart Shopping & Grocery" (install if not already installed) Image 46: 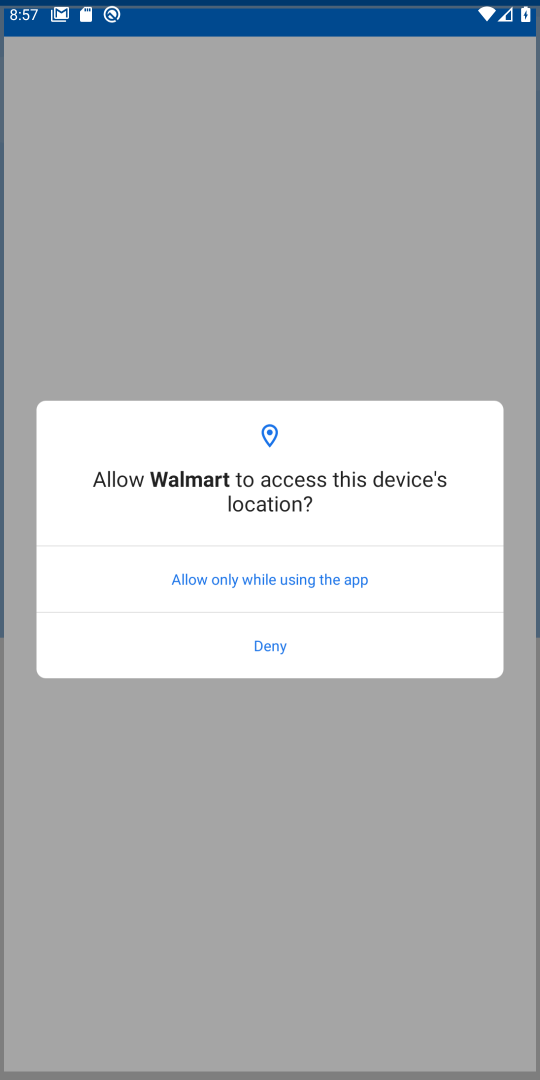
Step 46: click (321, 889)
Your task to perform on an android device: open app "Walmart Shopping & Grocery" (install if not already installed) Image 47: 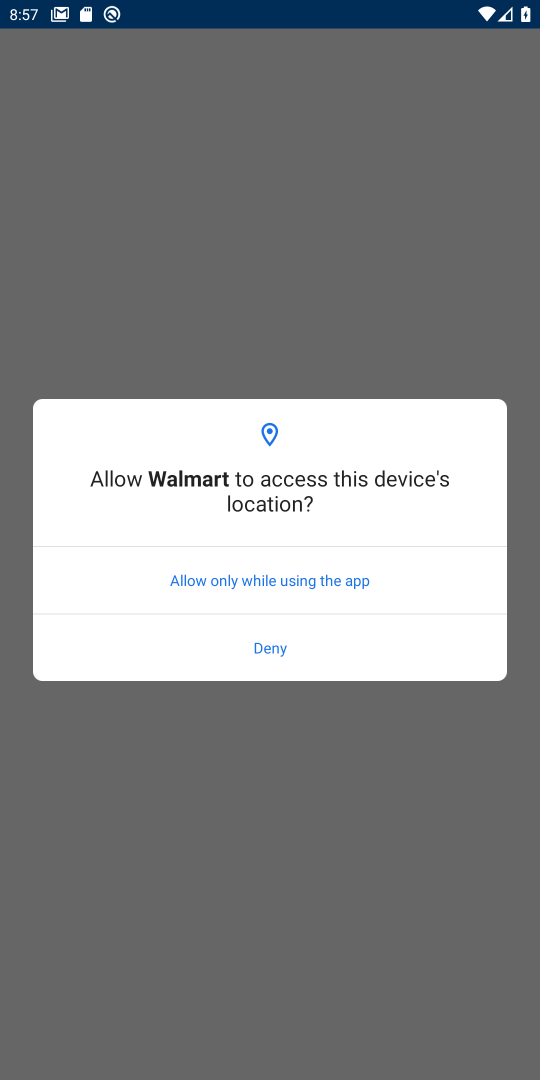
Step 47: click (321, 889)
Your task to perform on an android device: open app "Walmart Shopping & Grocery" (install if not already installed) Image 48: 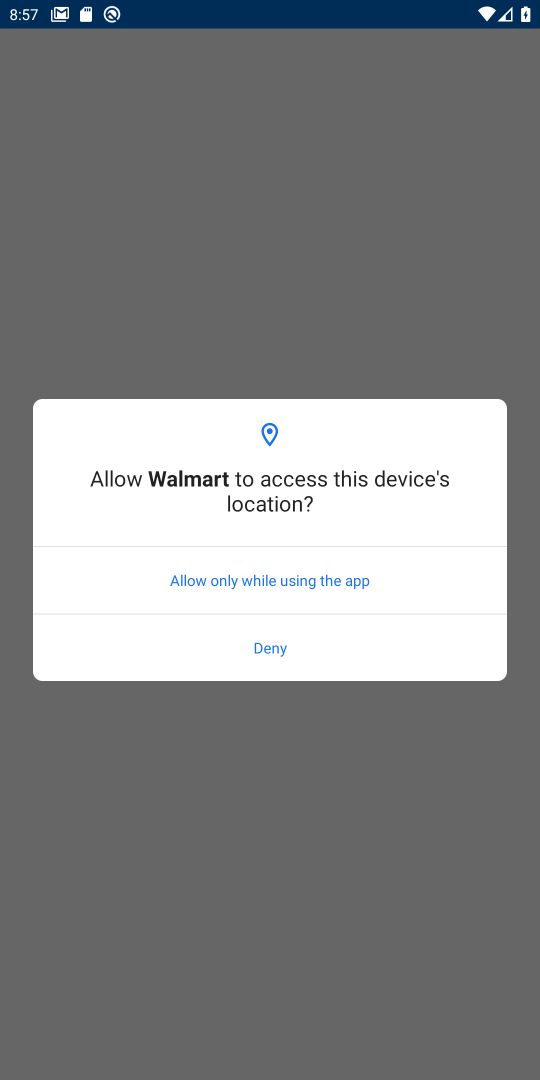
Step 48: click (321, 889)
Your task to perform on an android device: open app "Walmart Shopping & Grocery" (install if not already installed) Image 49: 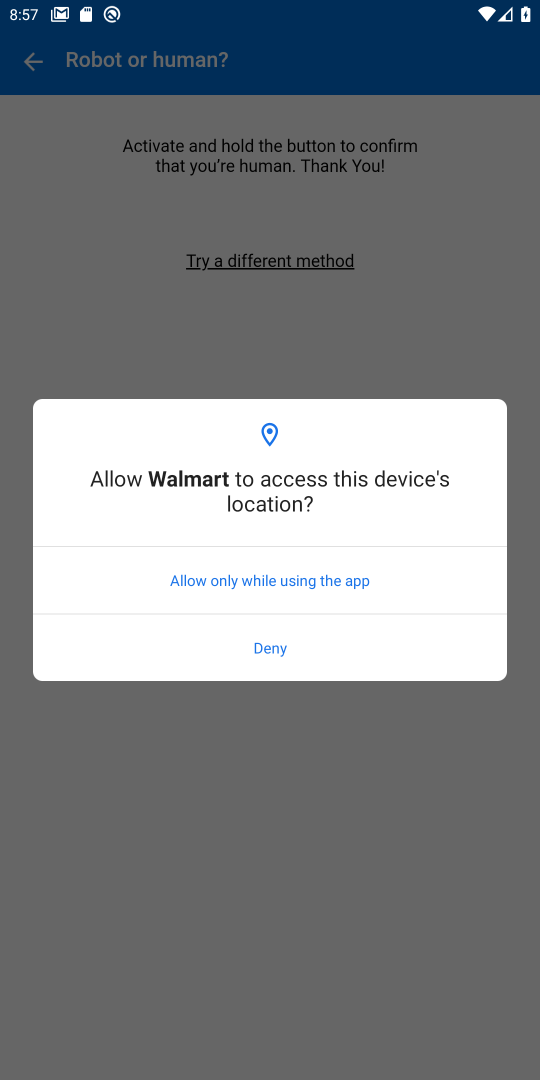
Step 49: click (281, 548)
Your task to perform on an android device: open app "Walmart Shopping & Grocery" (install if not already installed) Image 50: 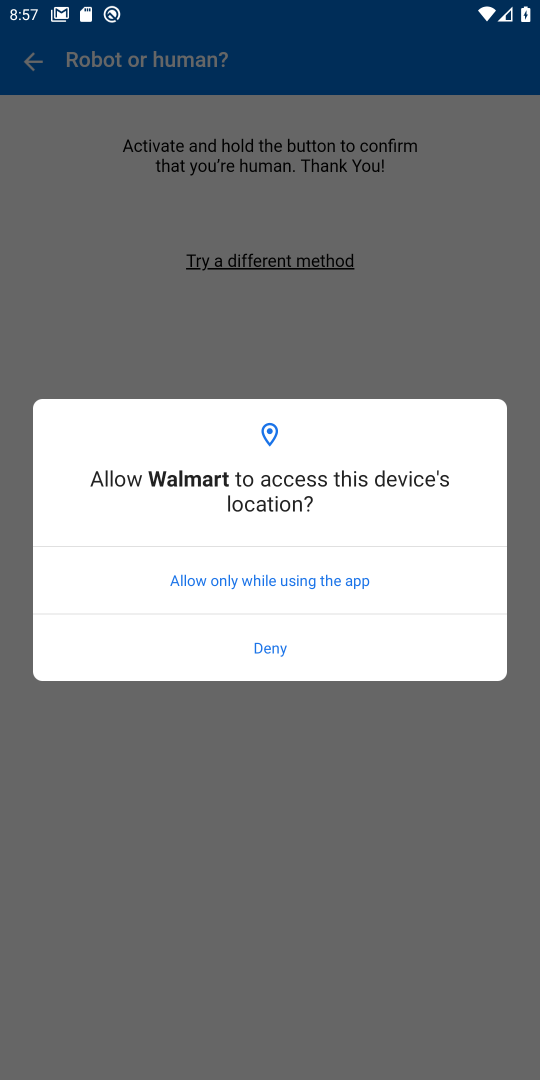
Step 50: click (282, 552)
Your task to perform on an android device: open app "Walmart Shopping & Grocery" (install if not already installed) Image 51: 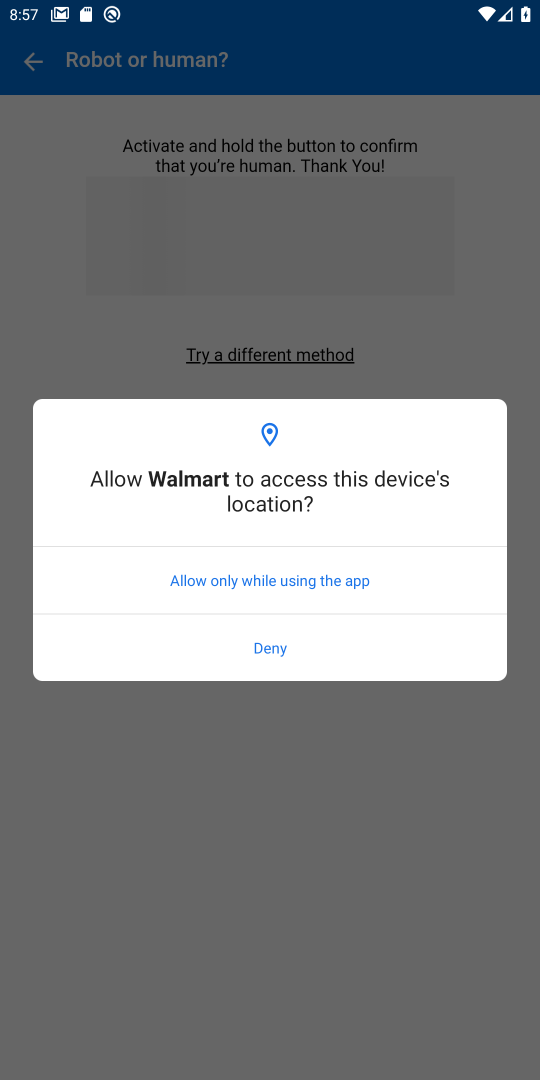
Step 51: click (304, 596)
Your task to perform on an android device: open app "Walmart Shopping & Grocery" (install if not already installed) Image 52: 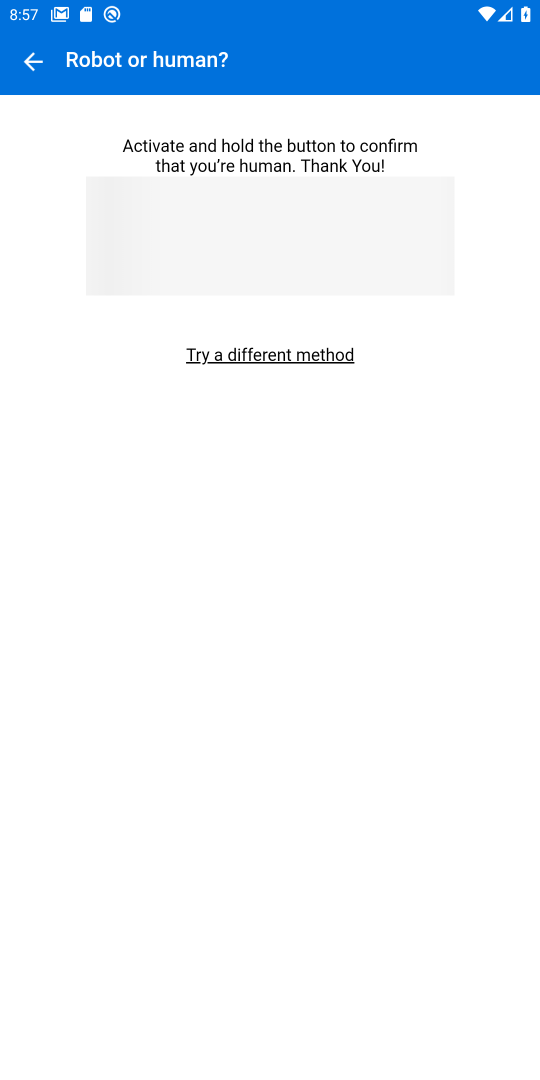
Step 52: click (19, 70)
Your task to perform on an android device: open app "Walmart Shopping & Grocery" (install if not already installed) Image 53: 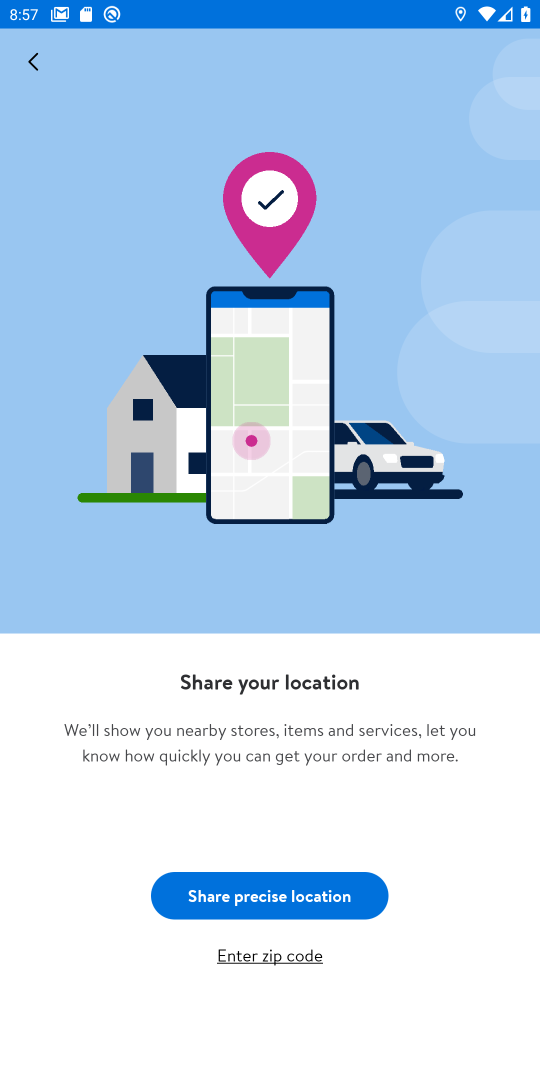
Step 53: click (297, 894)
Your task to perform on an android device: open app "Walmart Shopping & Grocery" (install if not already installed) Image 54: 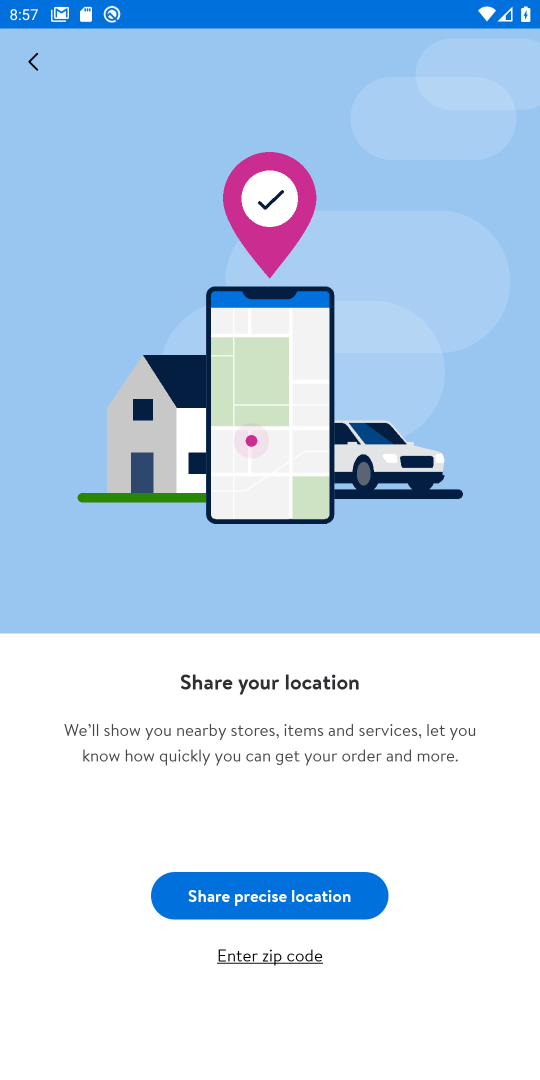
Step 54: click (275, 897)
Your task to perform on an android device: open app "Walmart Shopping & Grocery" (install if not already installed) Image 55: 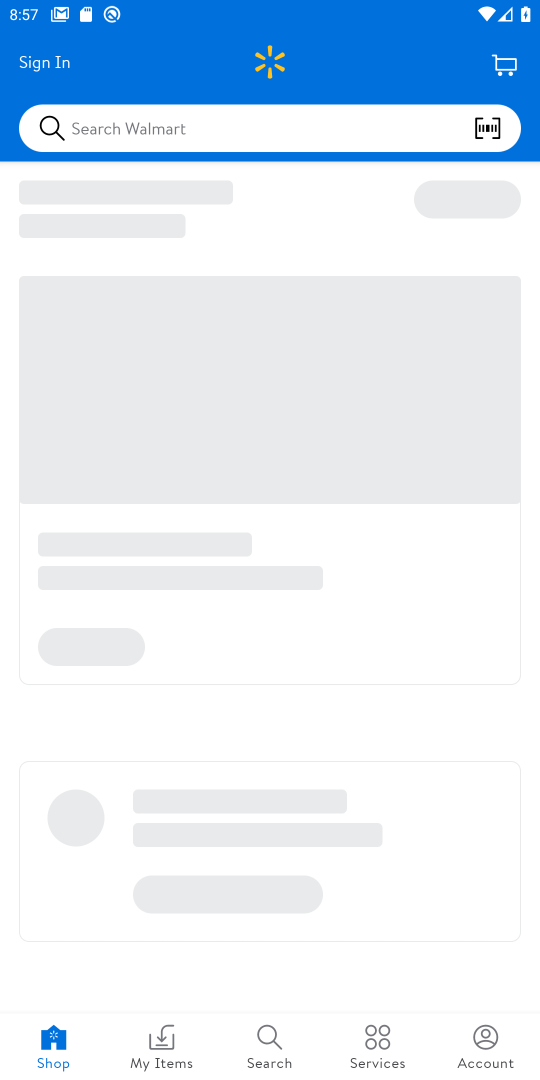
Step 55: task complete